Your task to perform on an android device: open app "Yahoo Mail" (install if not already installed) Image 0: 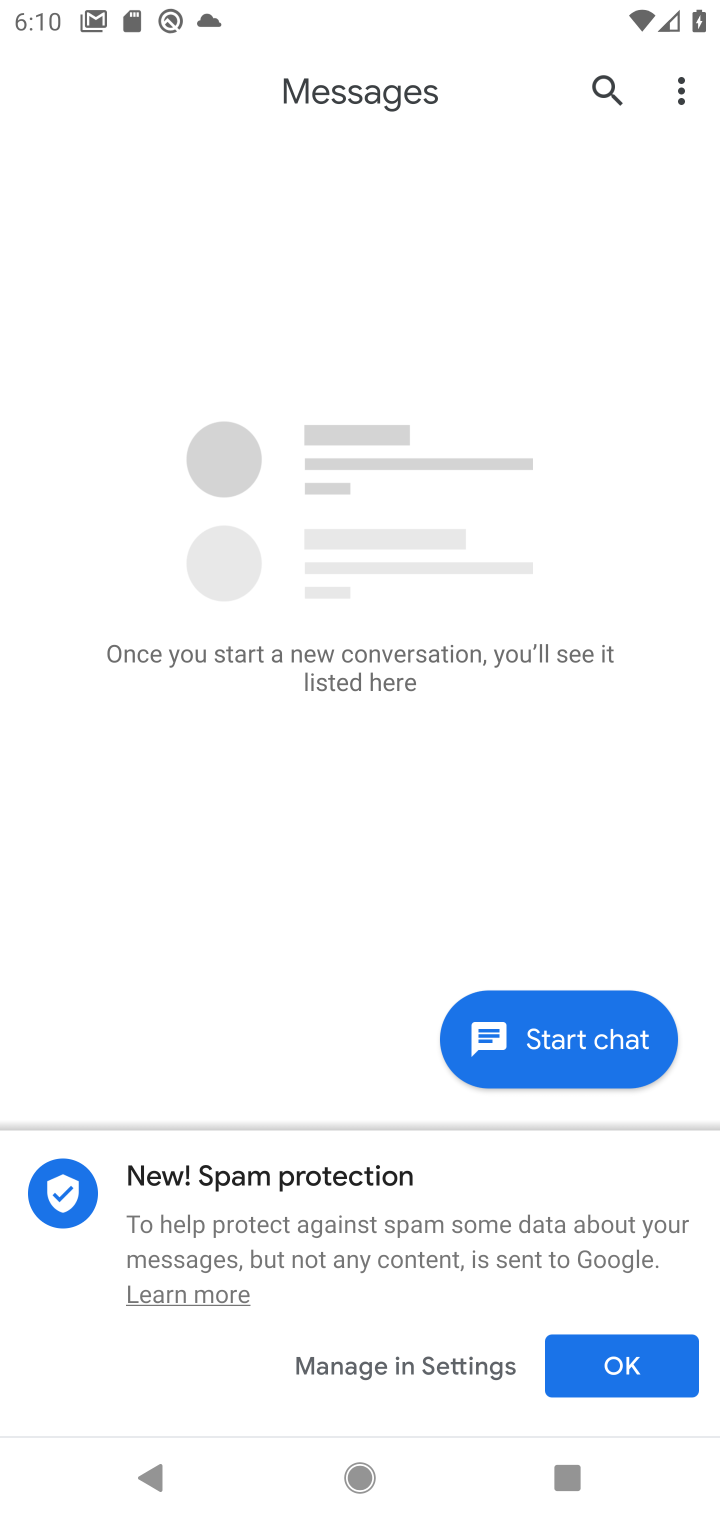
Step 0: drag from (322, 1040) to (416, 427)
Your task to perform on an android device: open app "Yahoo Mail" (install if not already installed) Image 1: 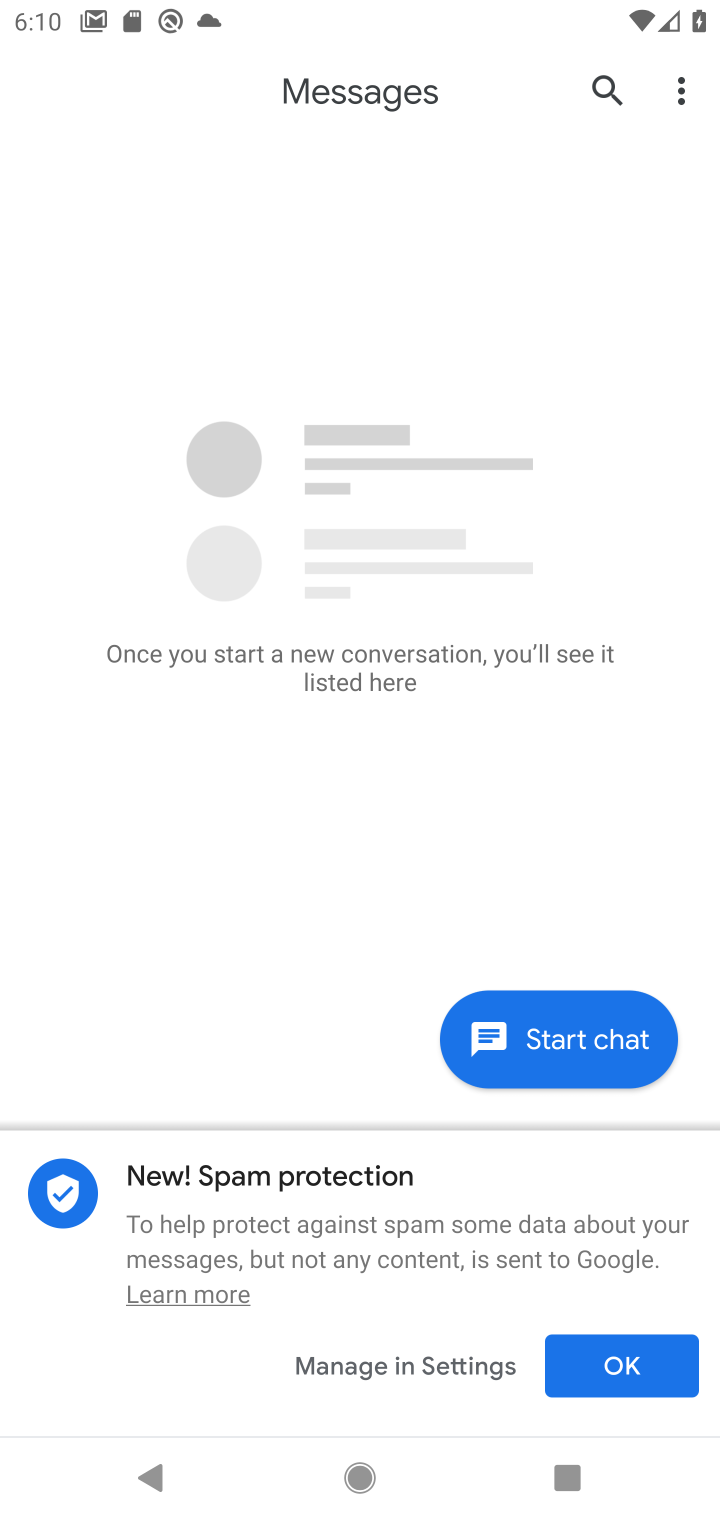
Step 1: drag from (468, 462) to (396, 1217)
Your task to perform on an android device: open app "Yahoo Mail" (install if not already installed) Image 2: 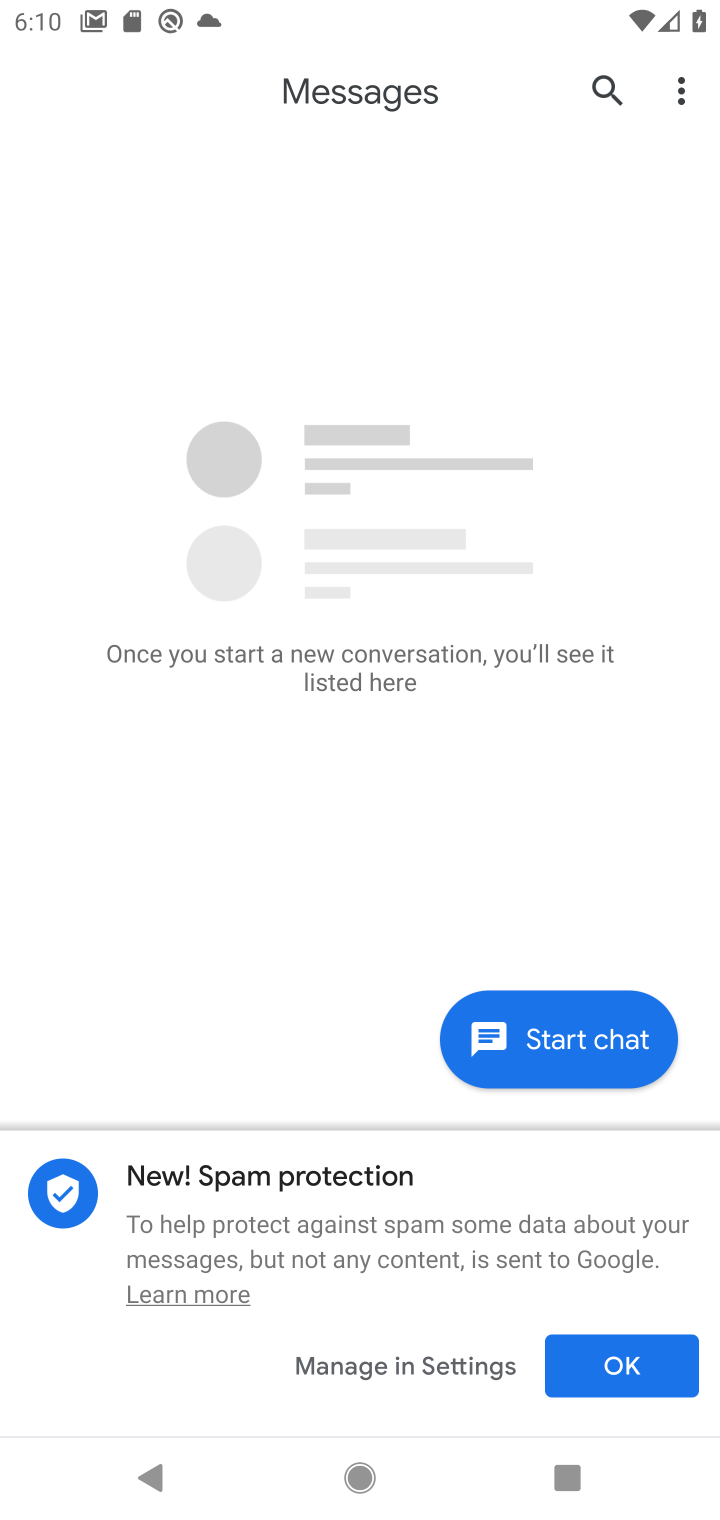
Step 2: press home button
Your task to perform on an android device: open app "Yahoo Mail" (install if not already installed) Image 3: 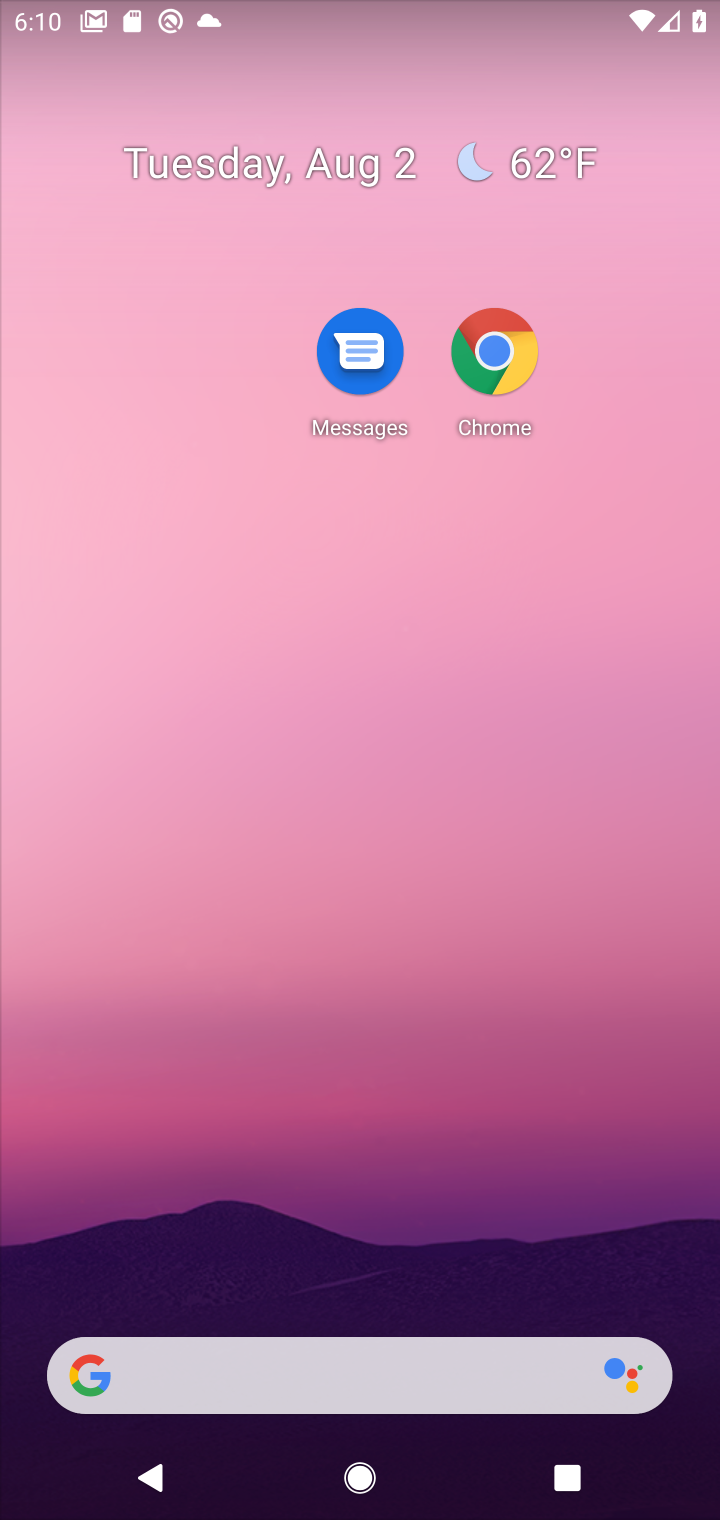
Step 3: drag from (300, 1271) to (322, 466)
Your task to perform on an android device: open app "Yahoo Mail" (install if not already installed) Image 4: 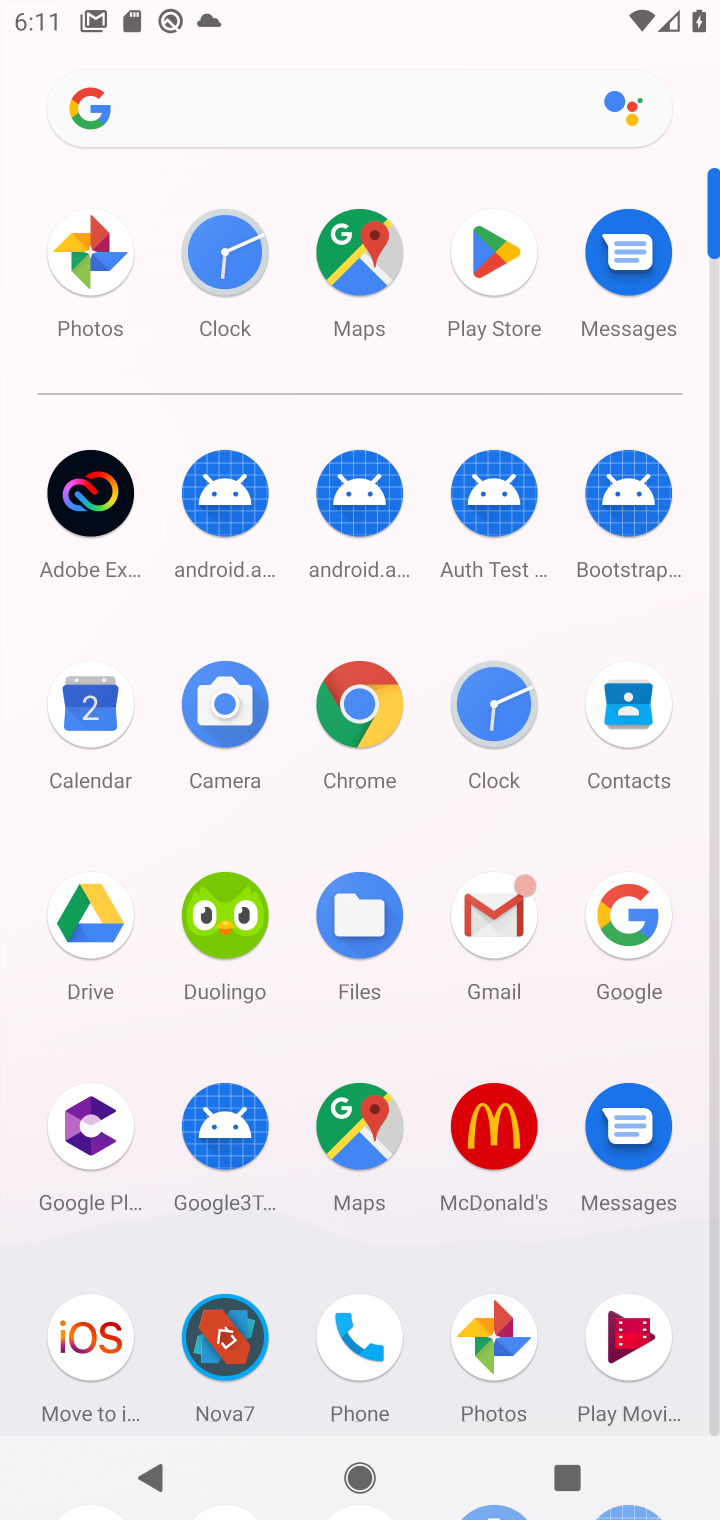
Step 4: click (471, 263)
Your task to perform on an android device: open app "Yahoo Mail" (install if not already installed) Image 5: 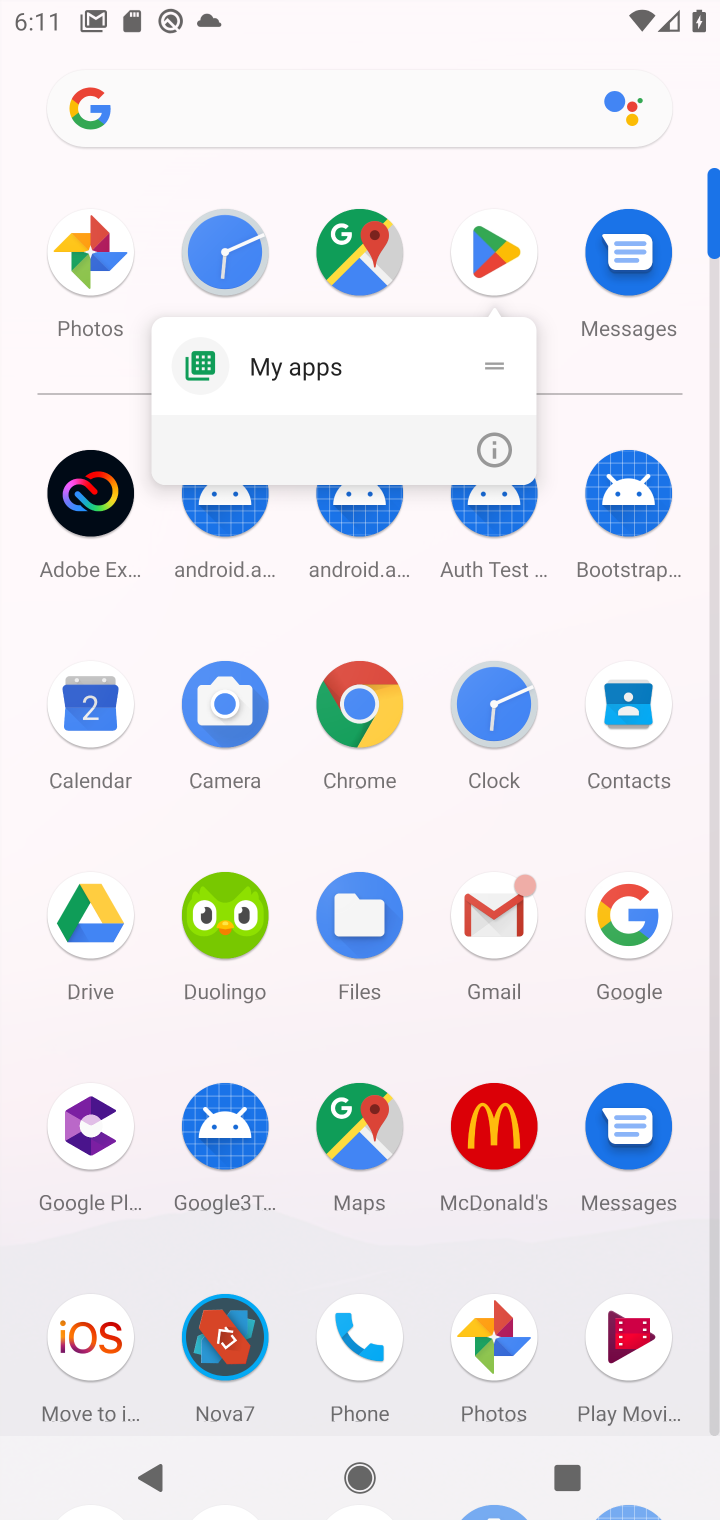
Step 5: click (490, 432)
Your task to perform on an android device: open app "Yahoo Mail" (install if not already installed) Image 6: 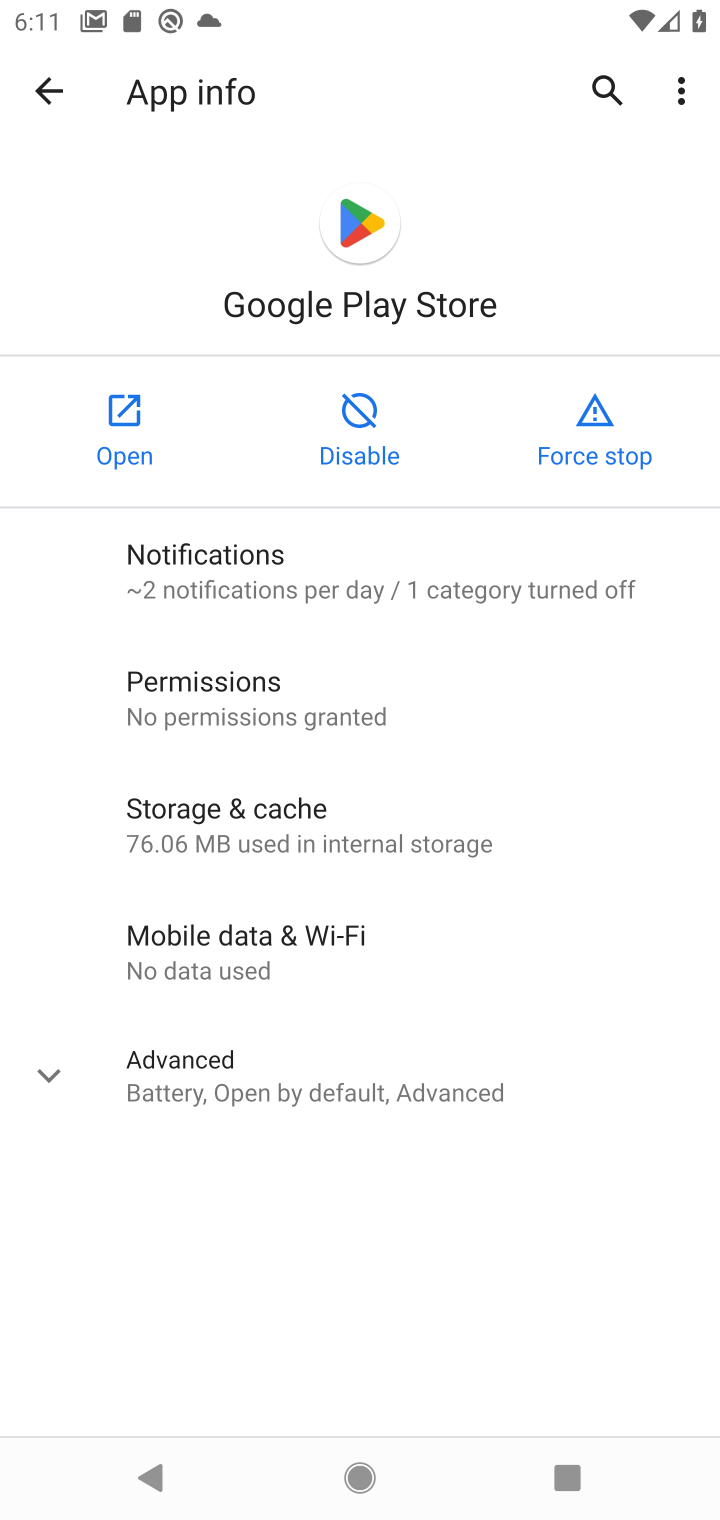
Step 6: click (127, 438)
Your task to perform on an android device: open app "Yahoo Mail" (install if not already installed) Image 7: 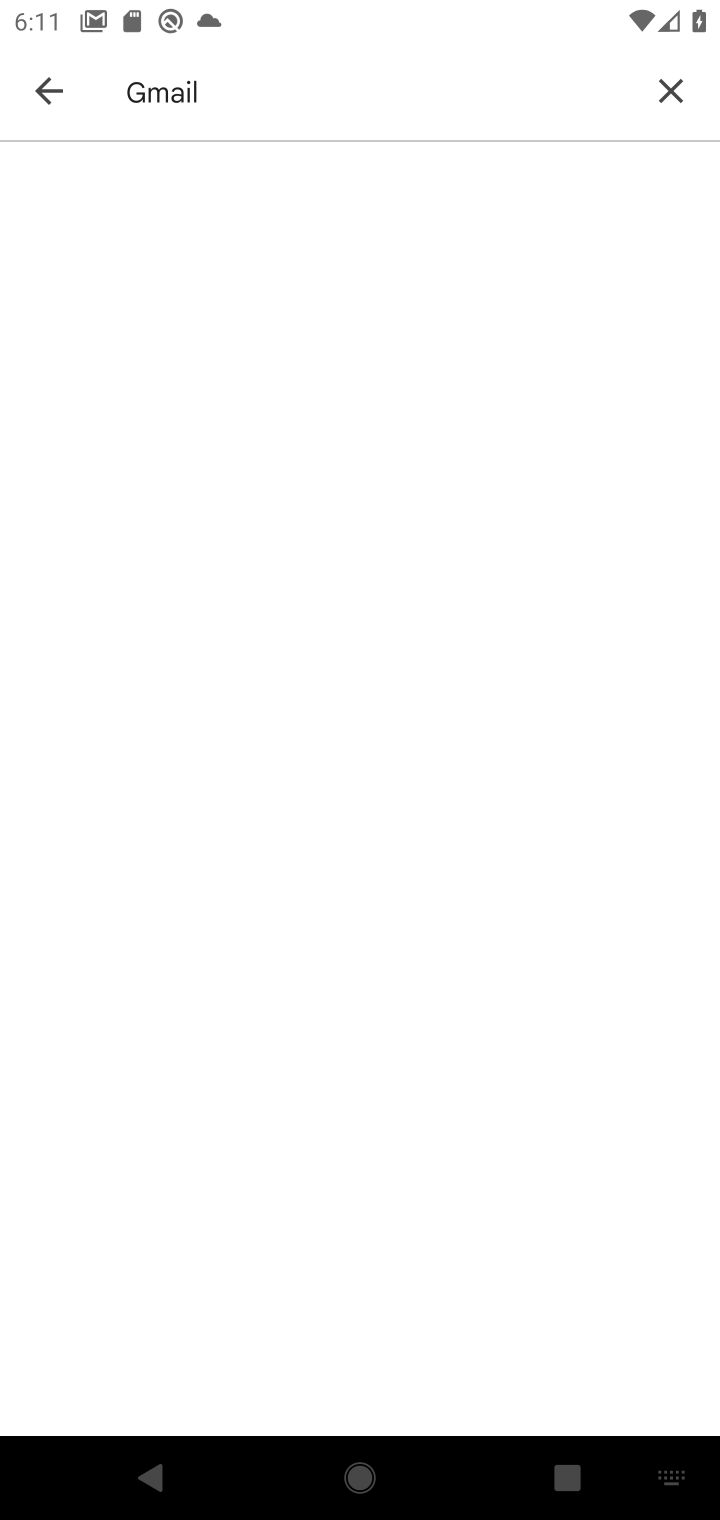
Step 7: click (681, 99)
Your task to perform on an android device: open app "Yahoo Mail" (install if not already installed) Image 8: 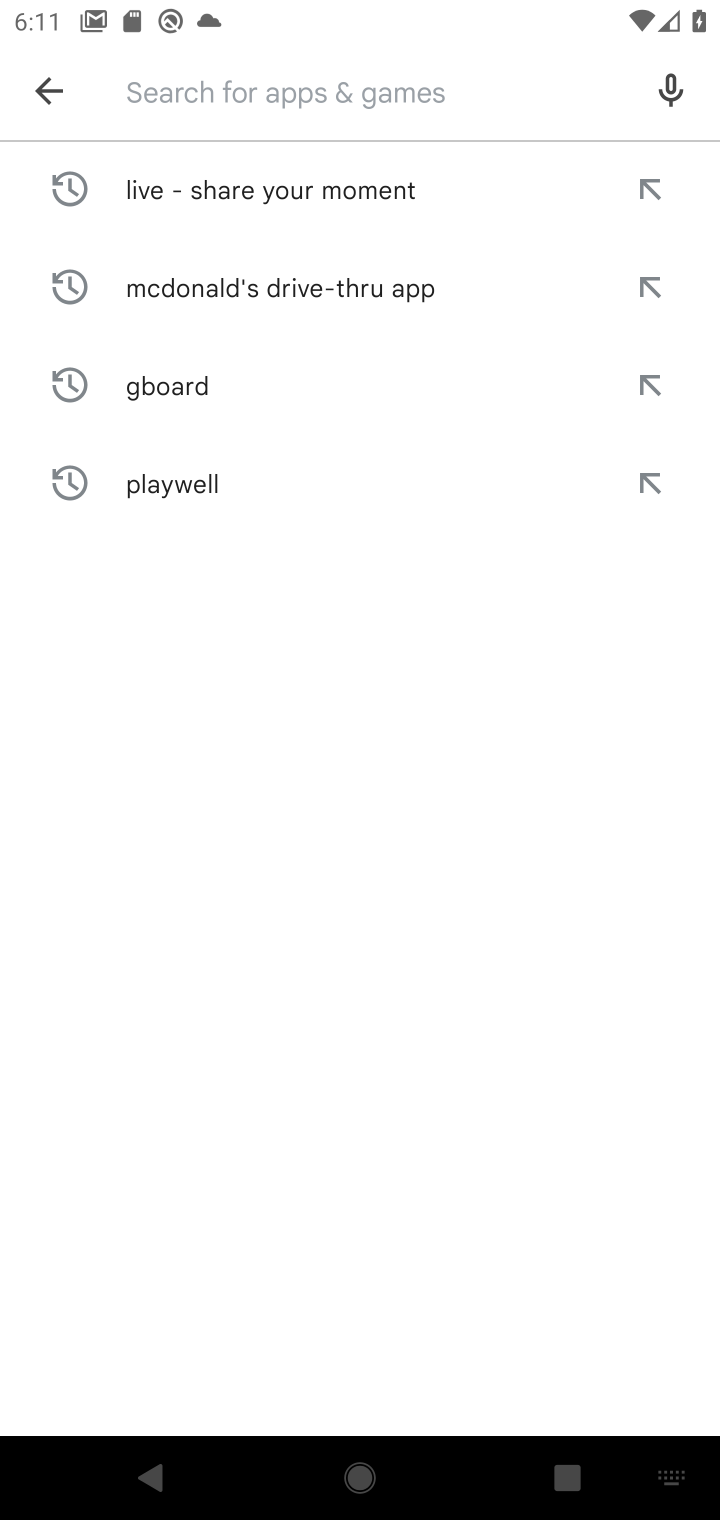
Step 8: click (32, 92)
Your task to perform on an android device: open app "Yahoo Mail" (install if not already installed) Image 9: 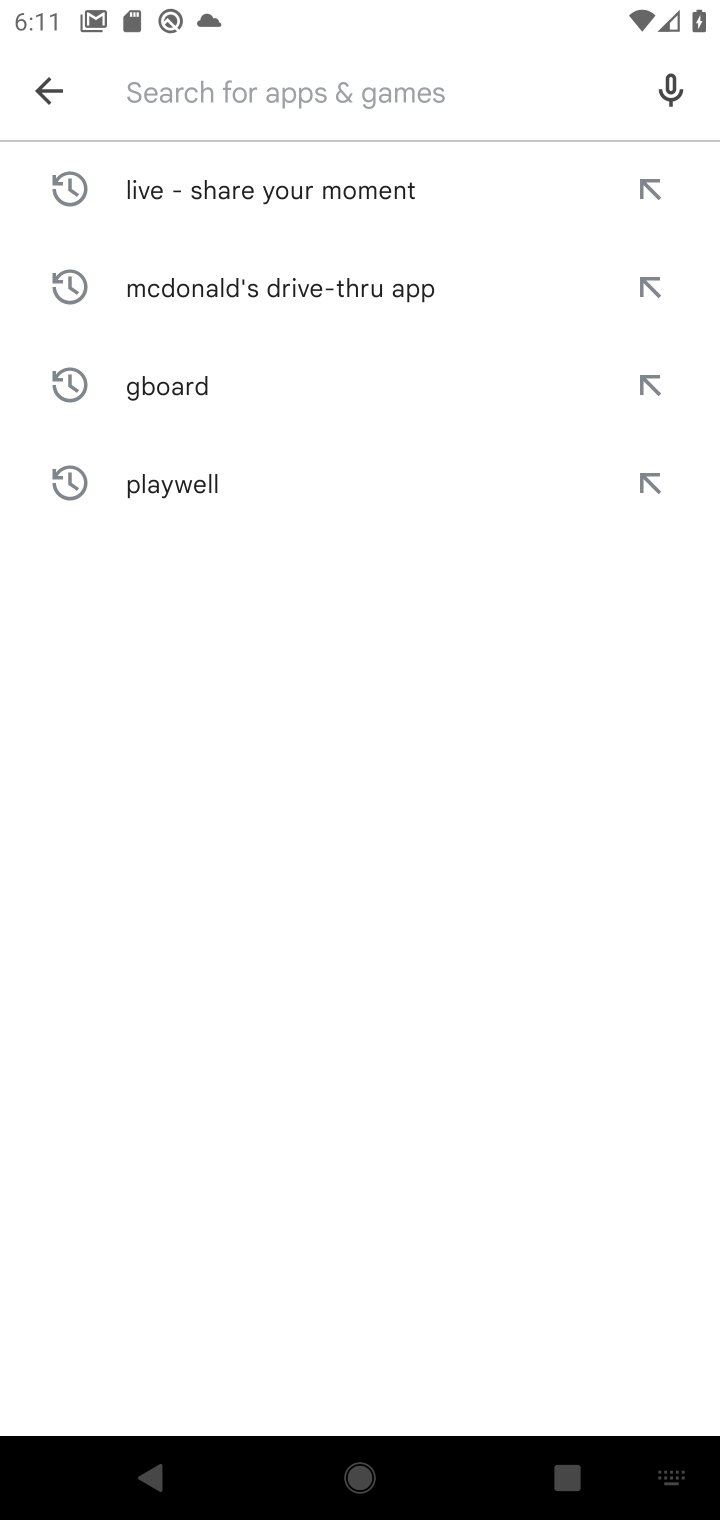
Step 9: click (168, 79)
Your task to perform on an android device: open app "Yahoo Mail" (install if not already installed) Image 10: 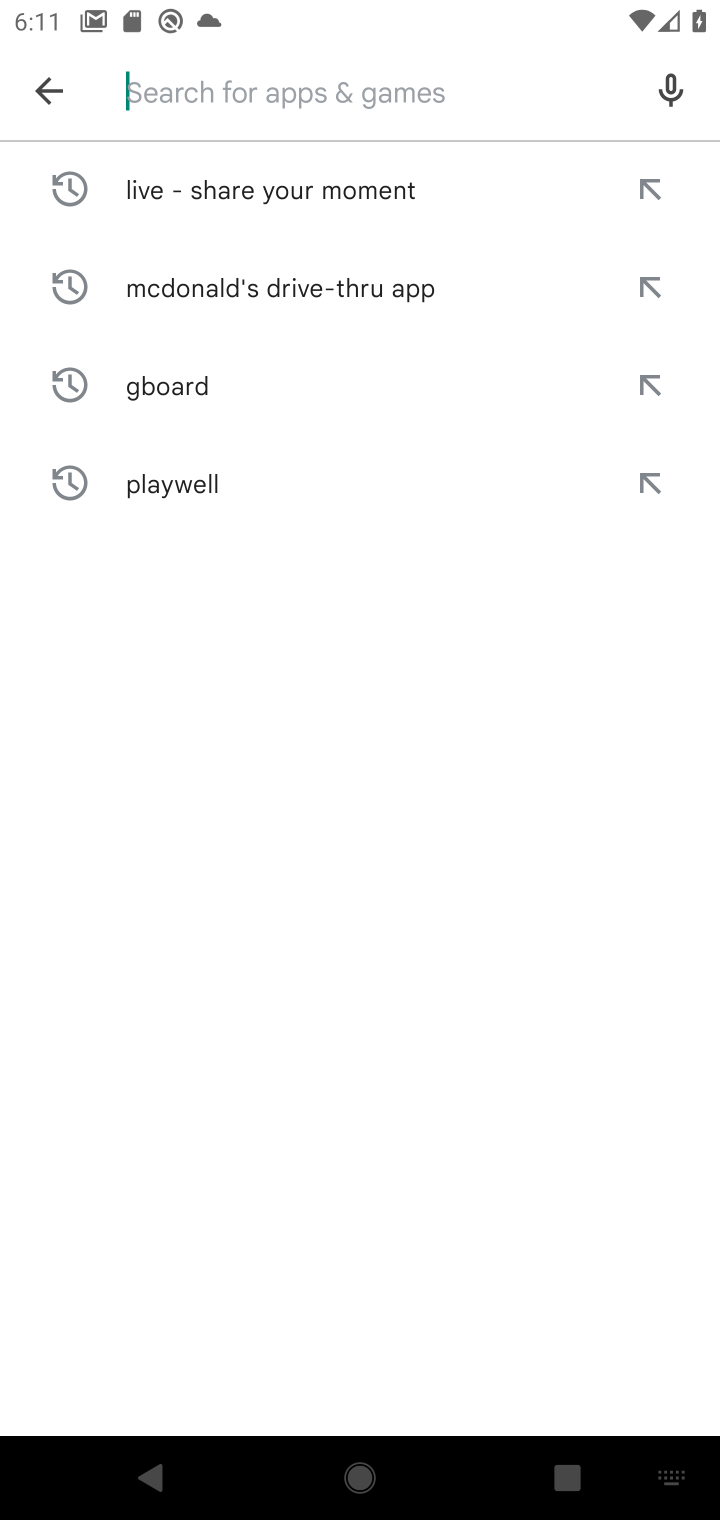
Step 10: type "Yahoo Mail"
Your task to perform on an android device: open app "Yahoo Mail" (install if not already installed) Image 11: 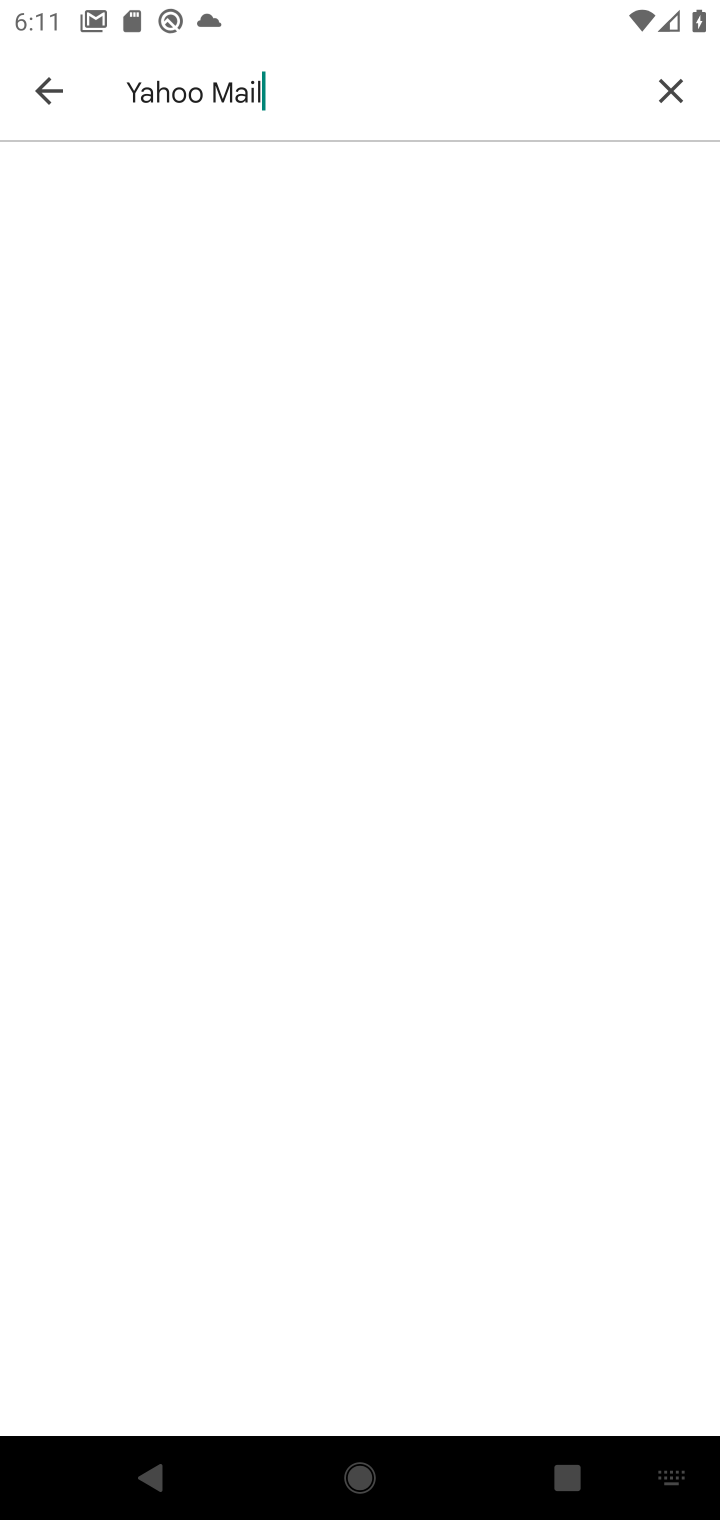
Step 11: click (331, 254)
Your task to perform on an android device: open app "Yahoo Mail" (install if not already installed) Image 12: 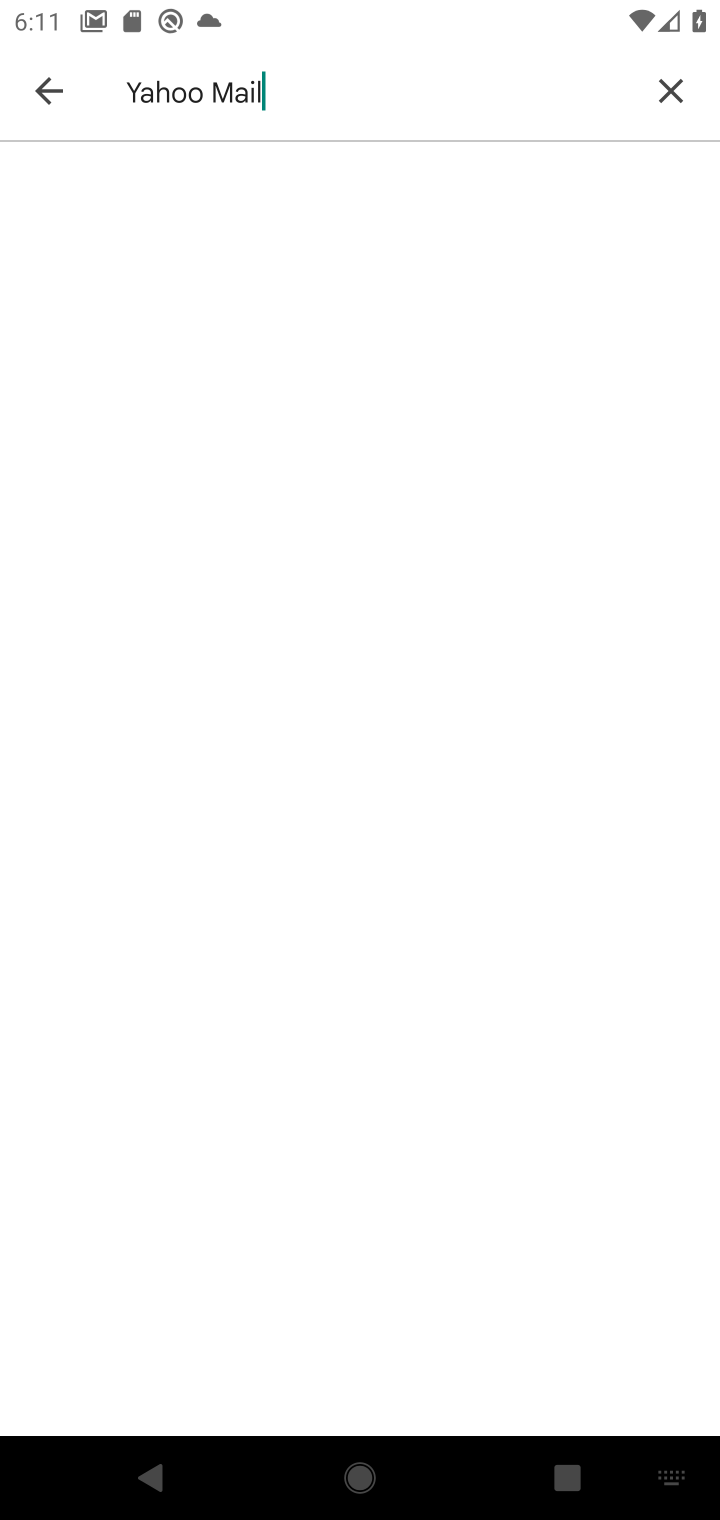
Step 12: click (268, 197)
Your task to perform on an android device: open app "Yahoo Mail" (install if not already installed) Image 13: 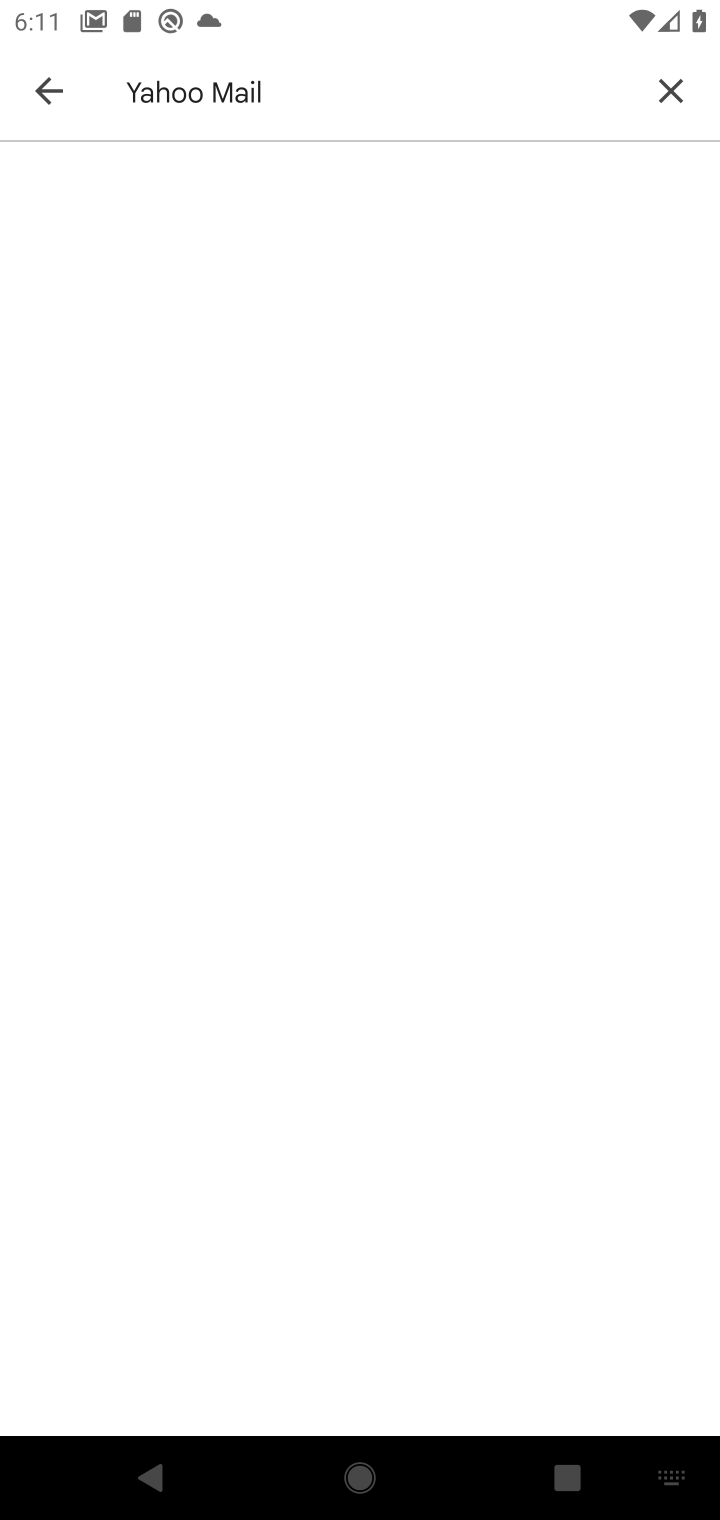
Step 13: drag from (400, 1224) to (450, 488)
Your task to perform on an android device: open app "Yahoo Mail" (install if not already installed) Image 14: 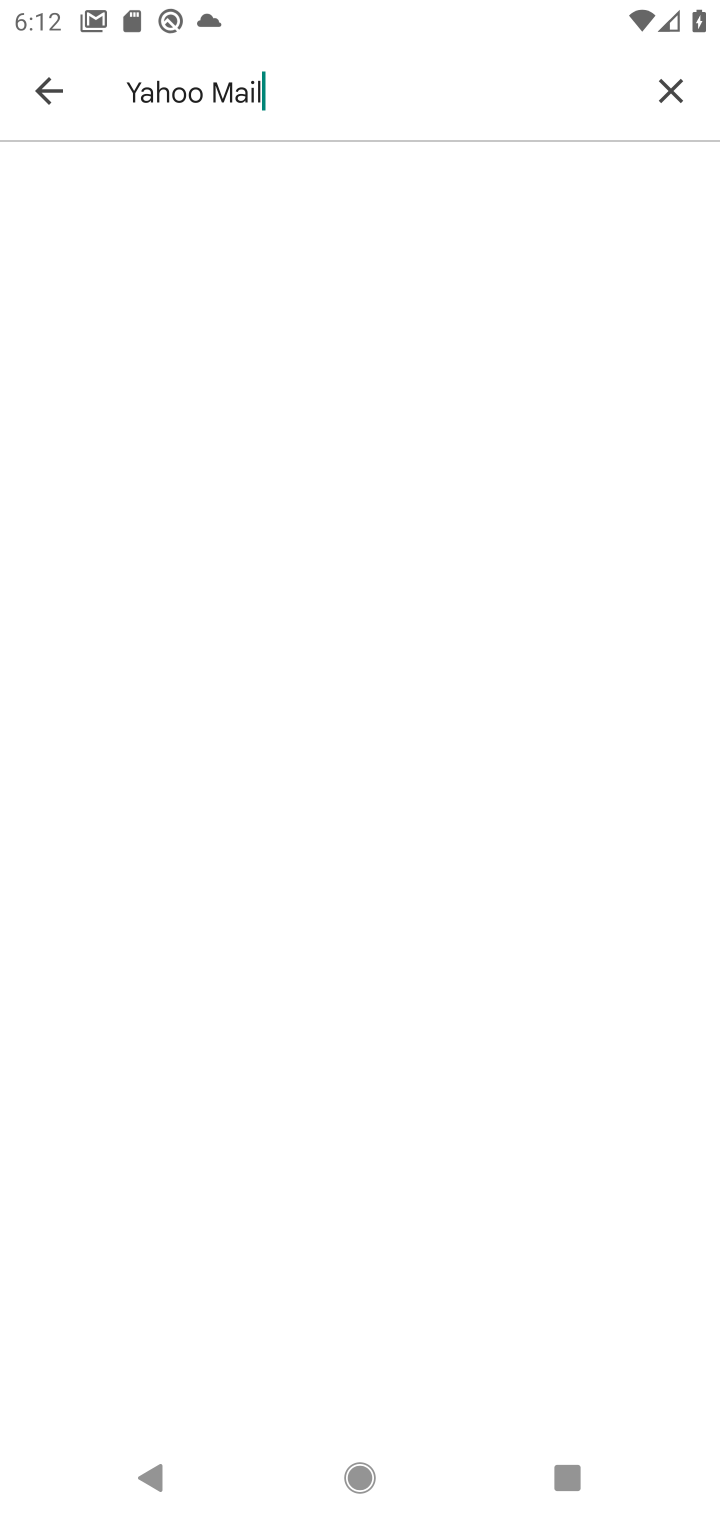
Step 14: drag from (259, 306) to (341, 1111)
Your task to perform on an android device: open app "Yahoo Mail" (install if not already installed) Image 15: 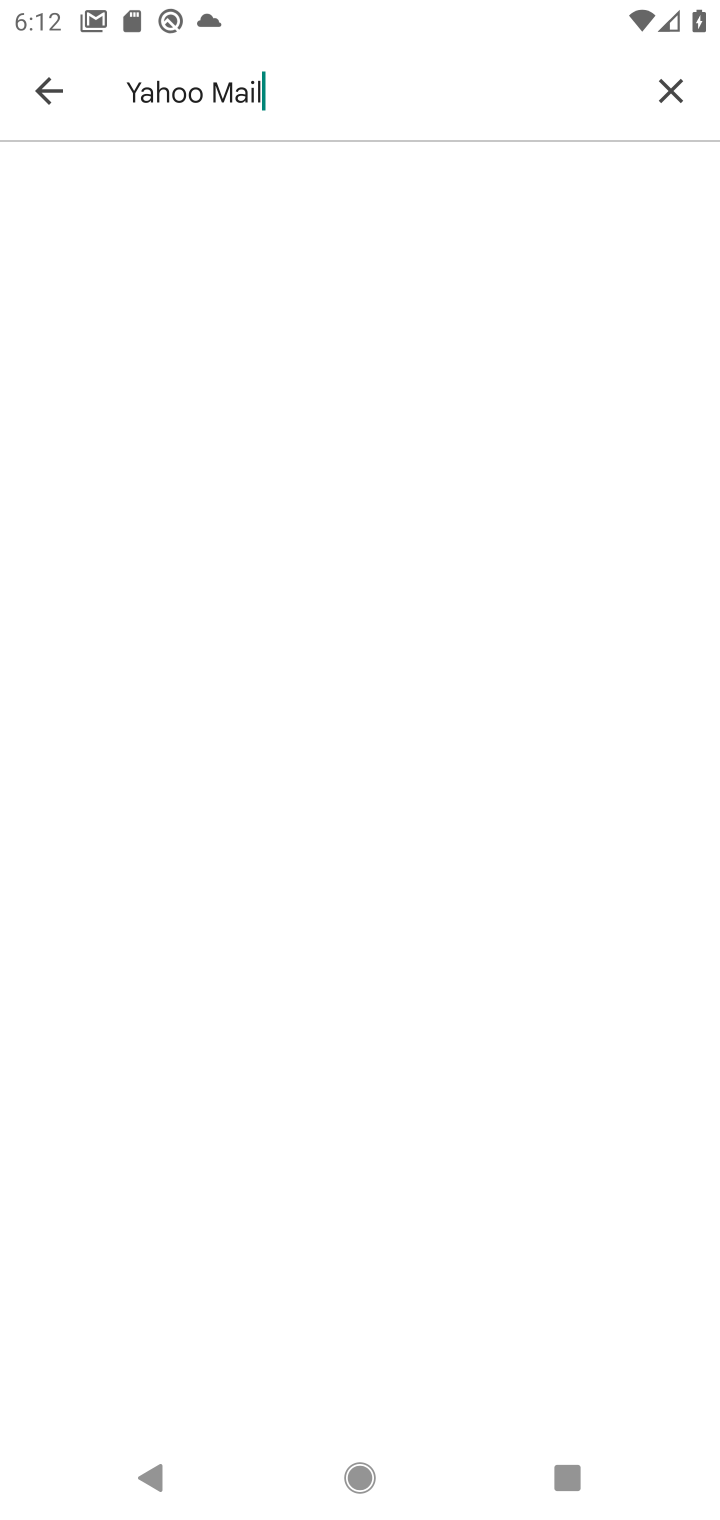
Step 15: click (364, 907)
Your task to perform on an android device: open app "Yahoo Mail" (install if not already installed) Image 16: 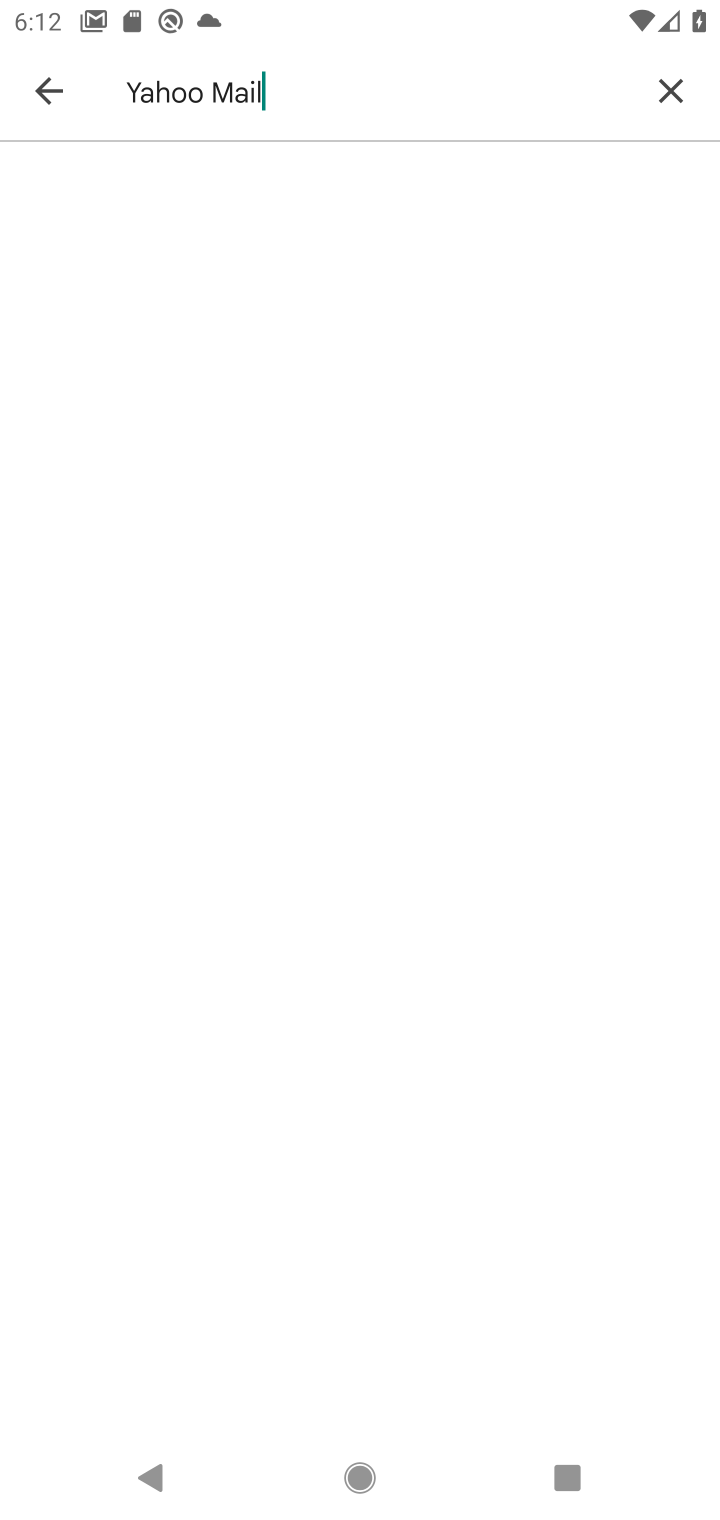
Step 16: click (241, 201)
Your task to perform on an android device: open app "Yahoo Mail" (install if not already installed) Image 17: 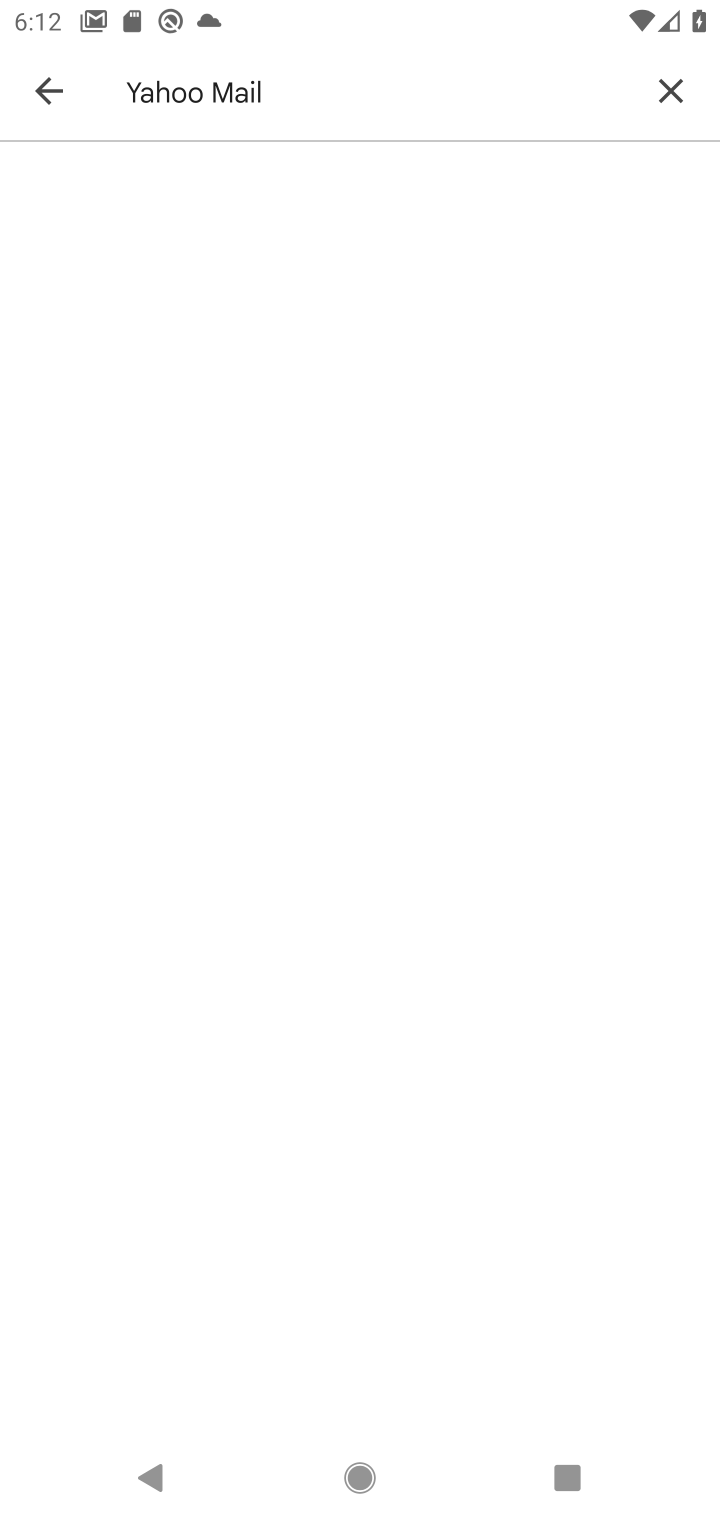
Step 17: click (201, 215)
Your task to perform on an android device: open app "Yahoo Mail" (install if not already installed) Image 18: 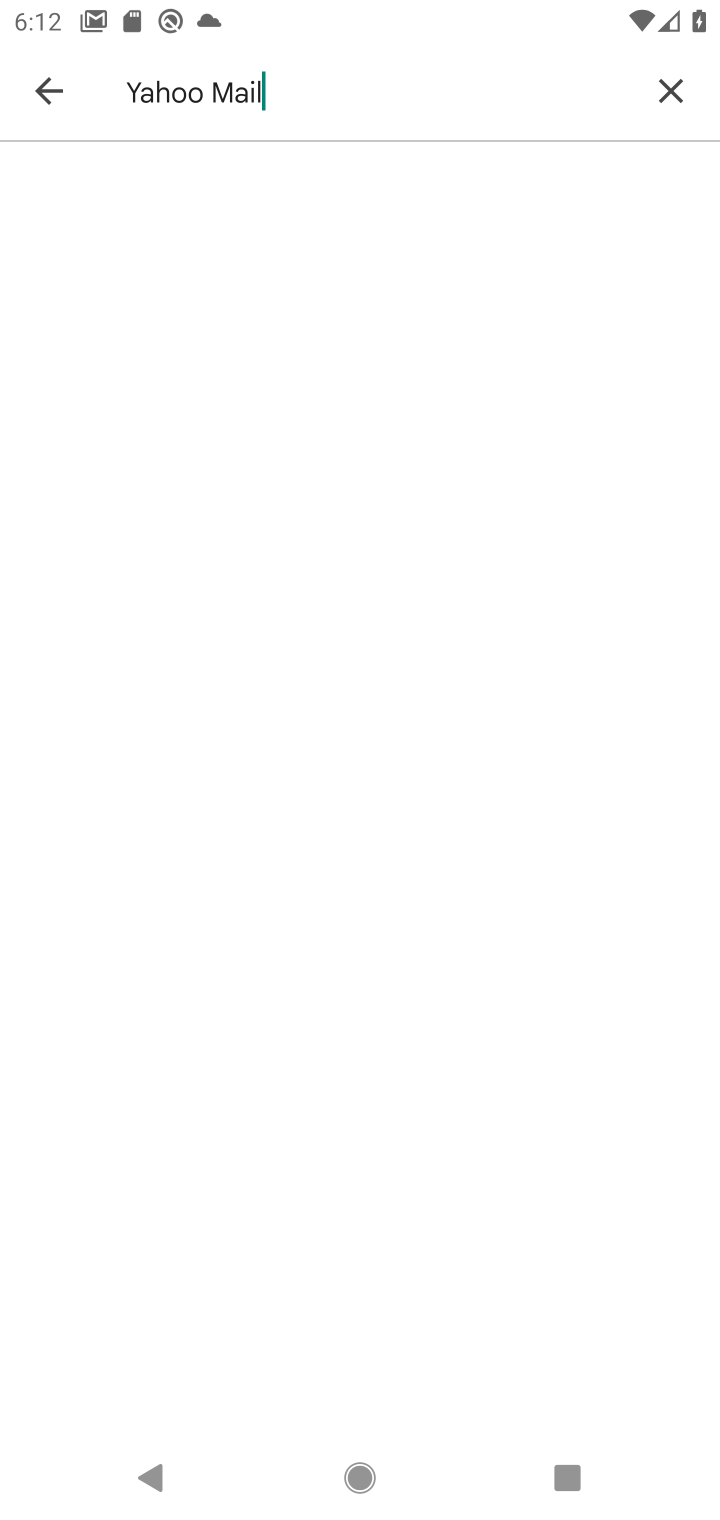
Step 18: click (191, 221)
Your task to perform on an android device: open app "Yahoo Mail" (install if not already installed) Image 19: 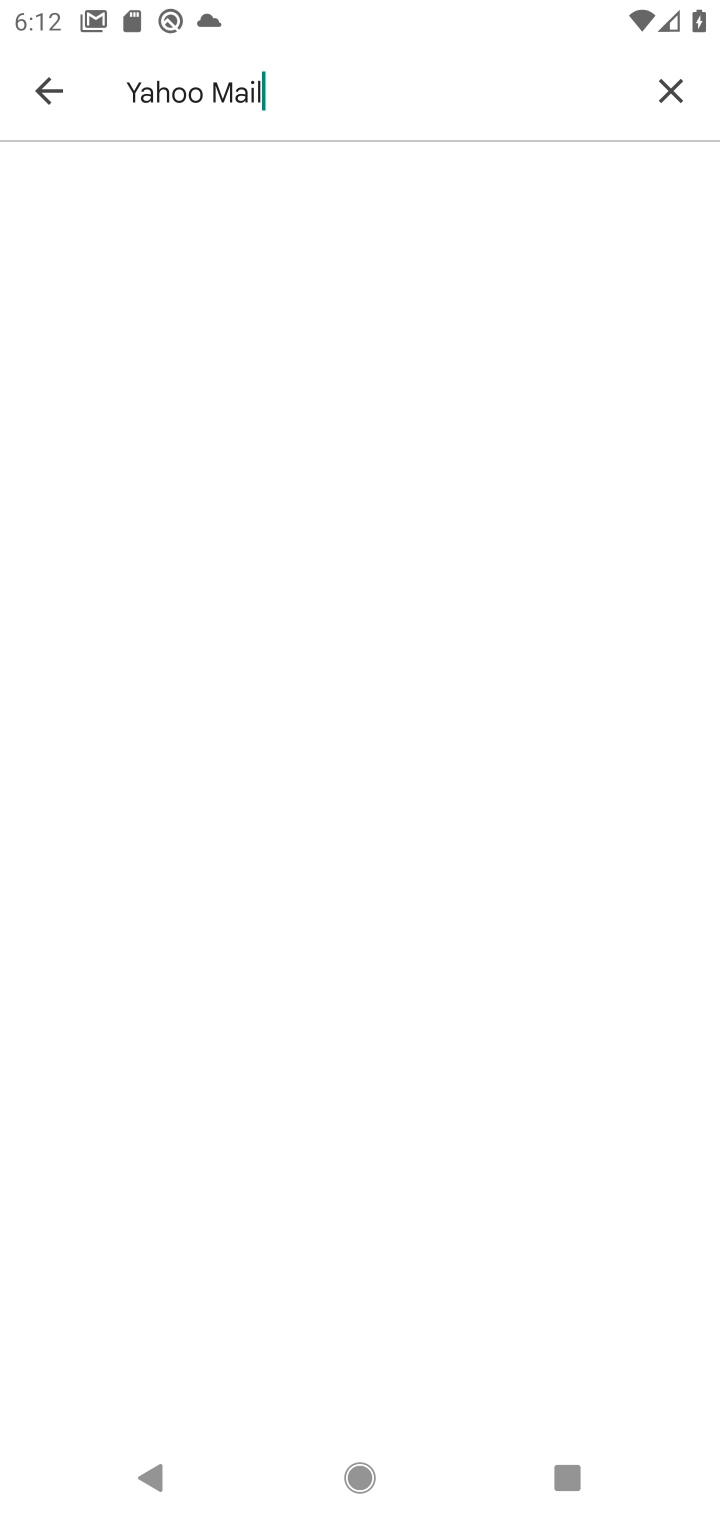
Step 19: click (149, 178)
Your task to perform on an android device: open app "Yahoo Mail" (install if not already installed) Image 20: 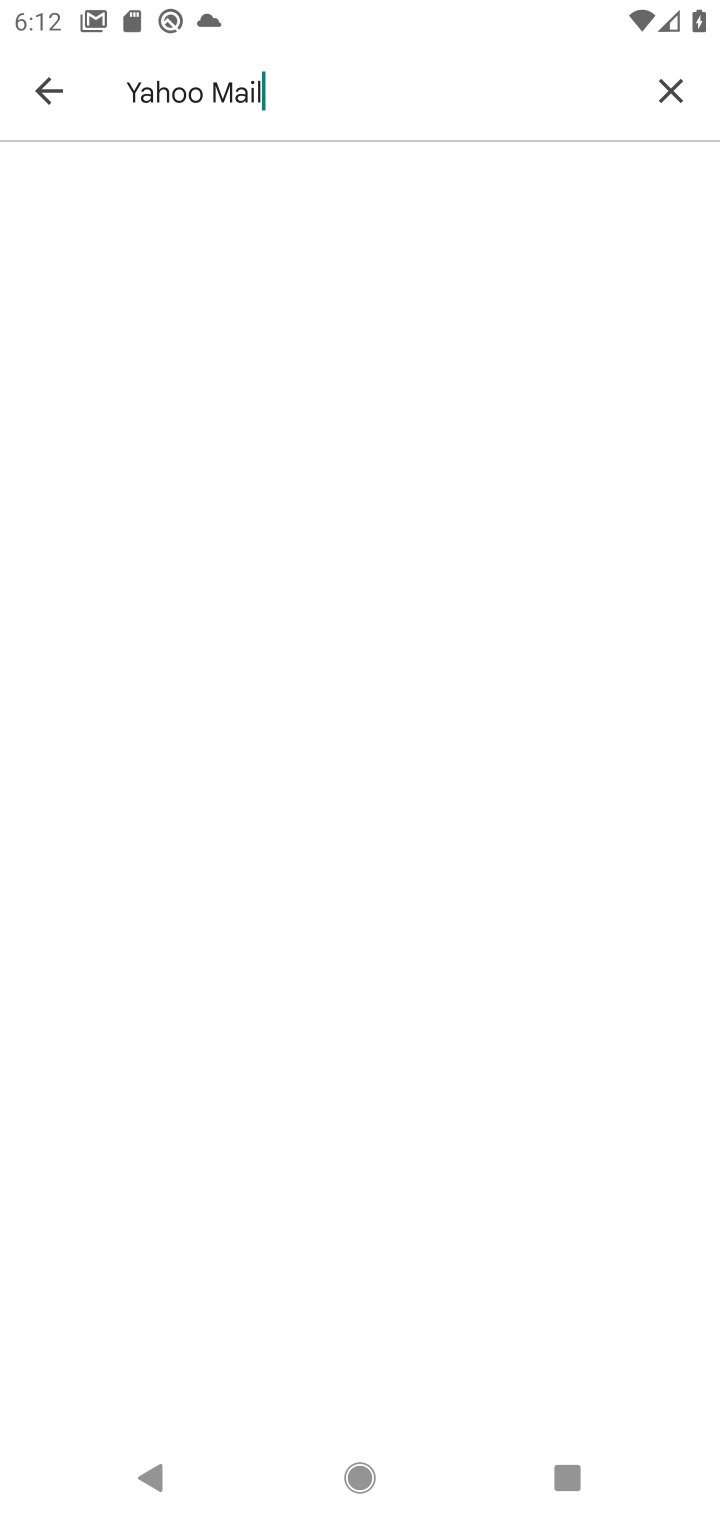
Step 20: click (147, 180)
Your task to perform on an android device: open app "Yahoo Mail" (install if not already installed) Image 21: 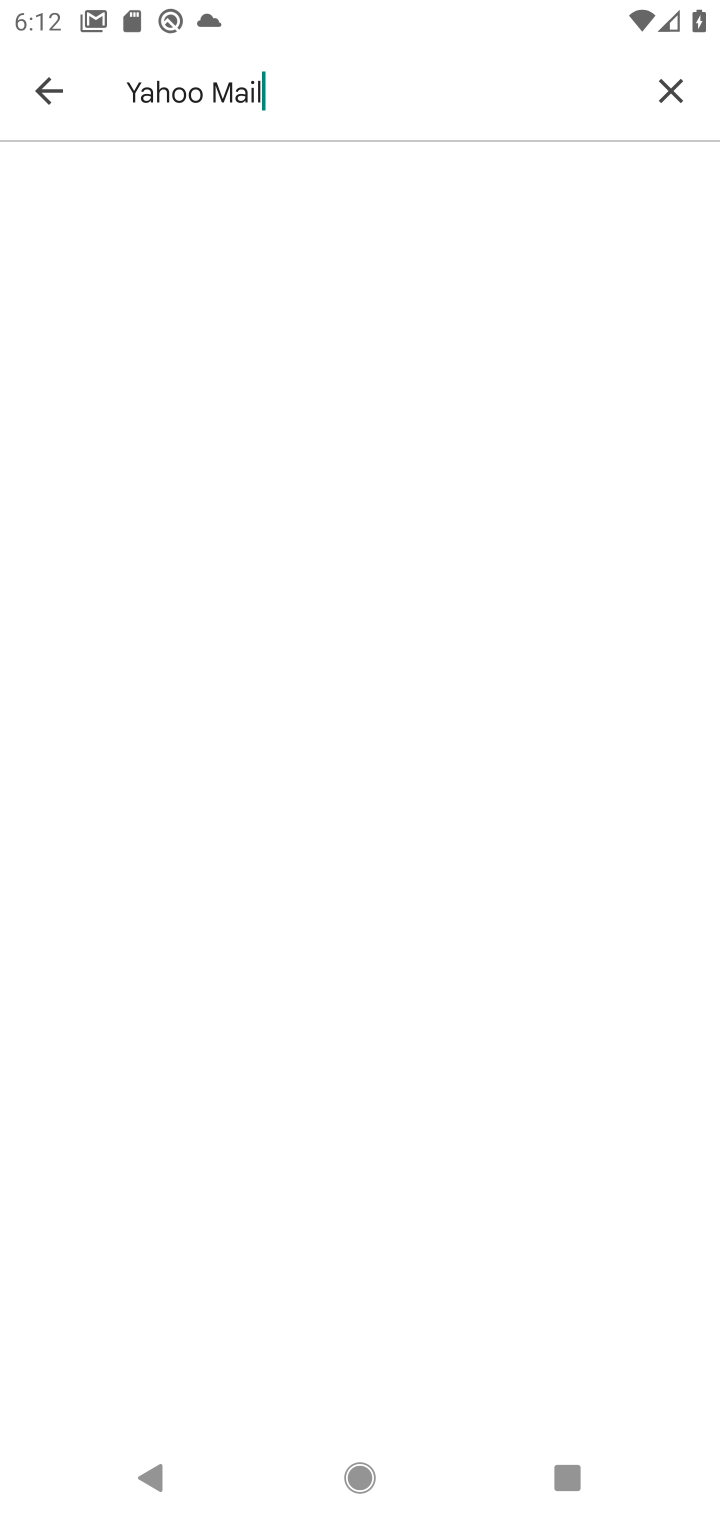
Step 21: click (147, 180)
Your task to perform on an android device: open app "Yahoo Mail" (install if not already installed) Image 22: 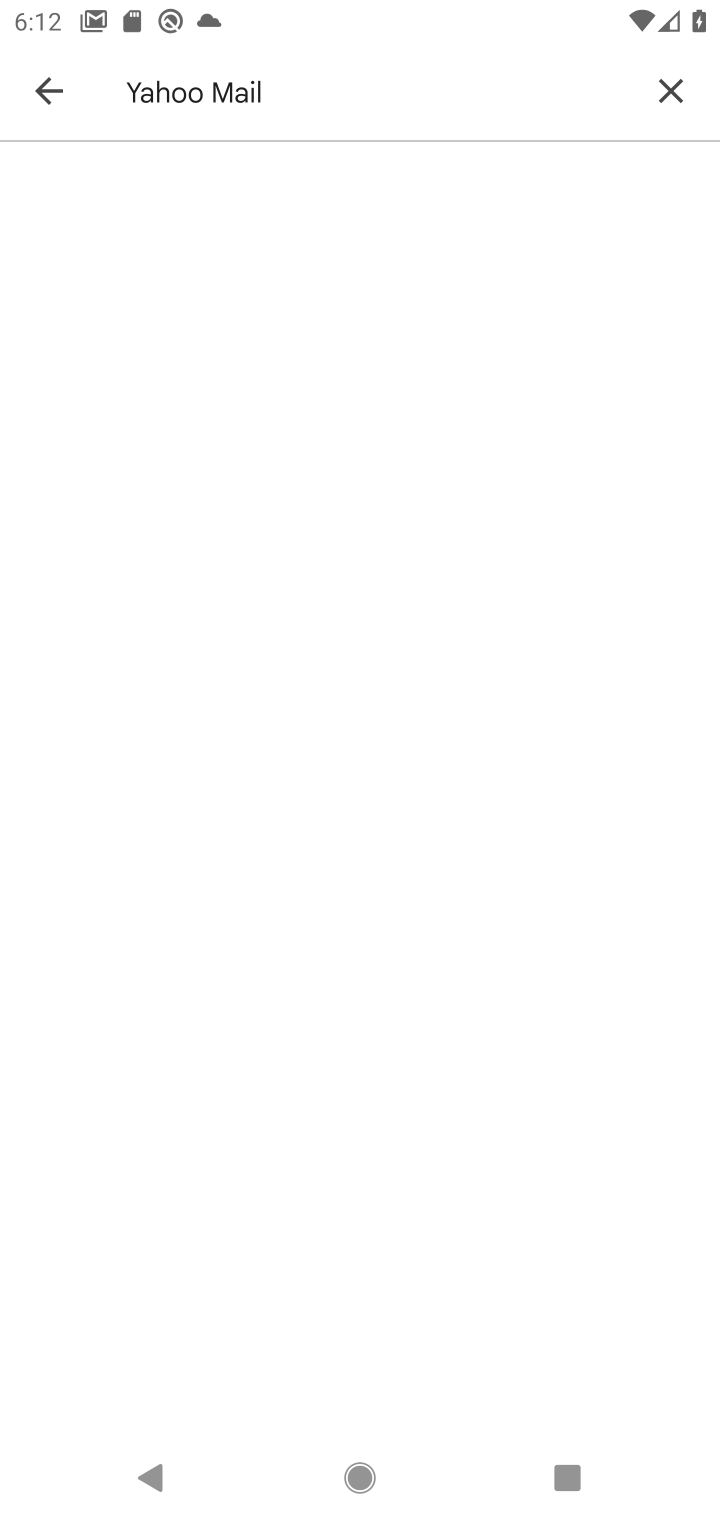
Step 22: click (195, 166)
Your task to perform on an android device: open app "Yahoo Mail" (install if not already installed) Image 23: 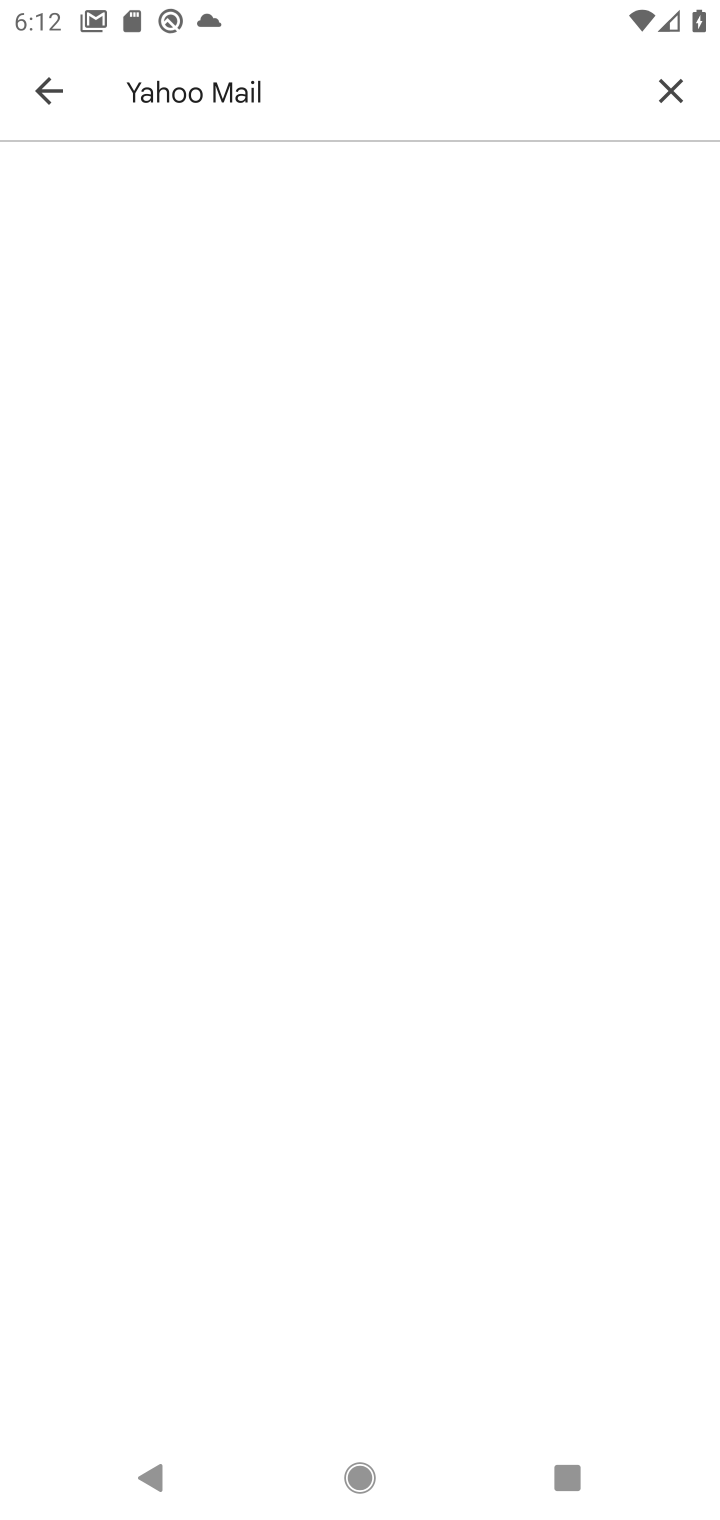
Step 23: click (290, 173)
Your task to perform on an android device: open app "Yahoo Mail" (install if not already installed) Image 24: 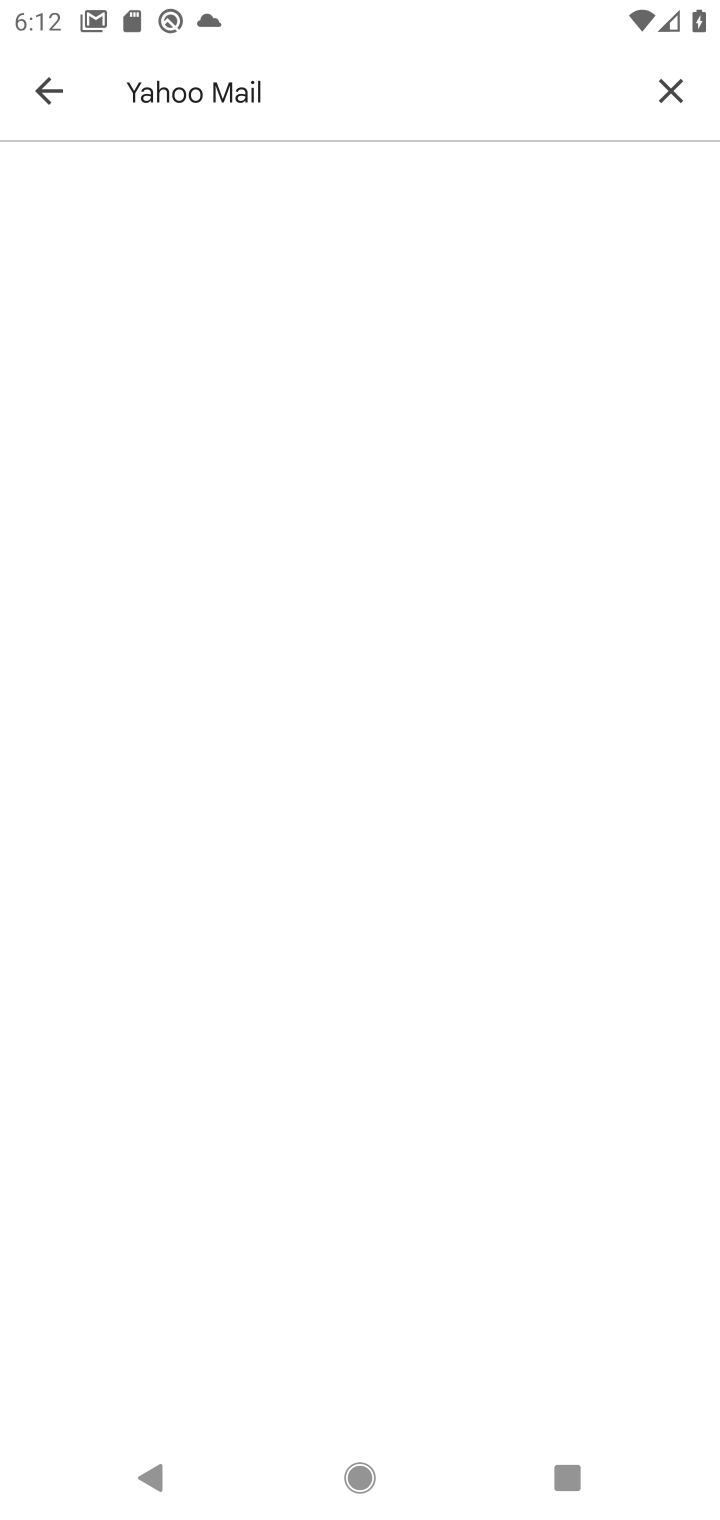
Step 24: click (182, 199)
Your task to perform on an android device: open app "Yahoo Mail" (install if not already installed) Image 25: 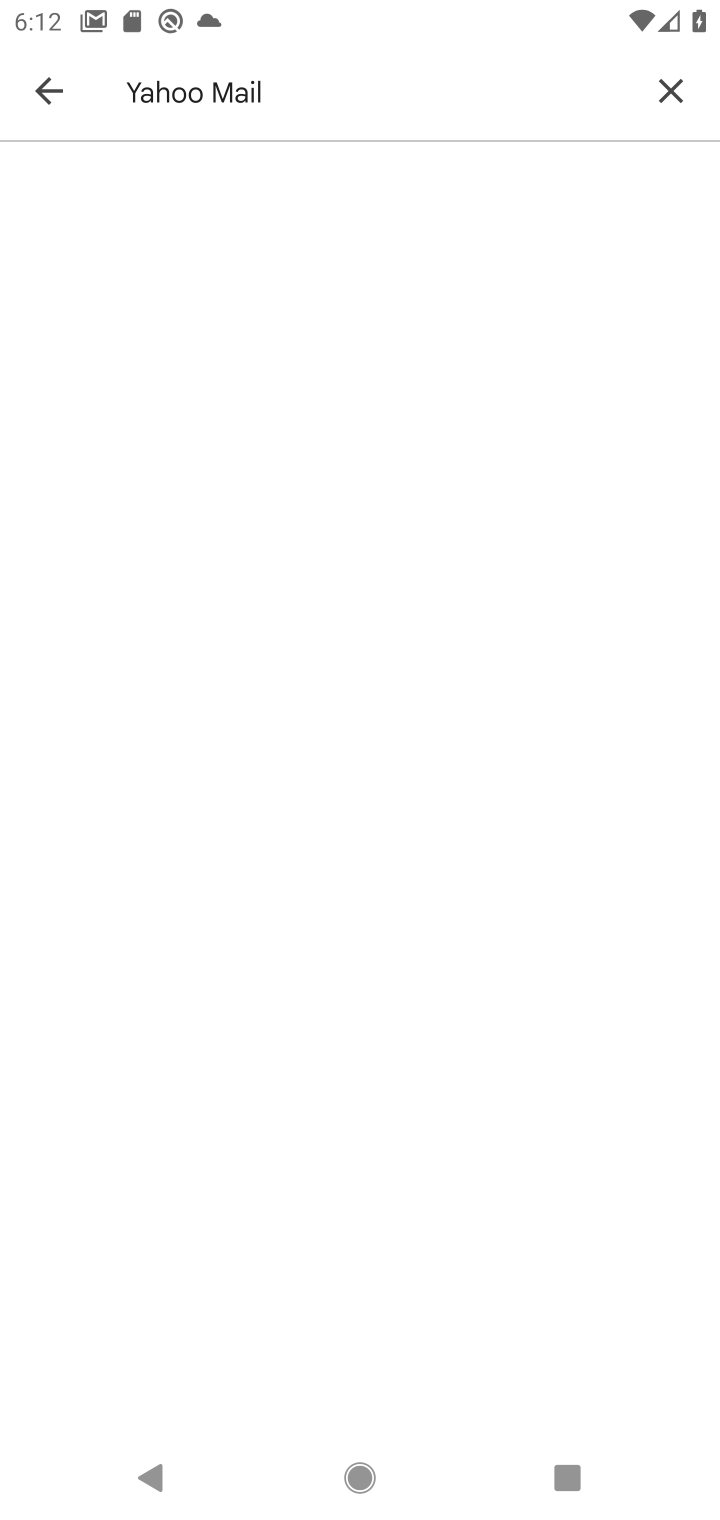
Step 25: click (172, 203)
Your task to perform on an android device: open app "Yahoo Mail" (install if not already installed) Image 26: 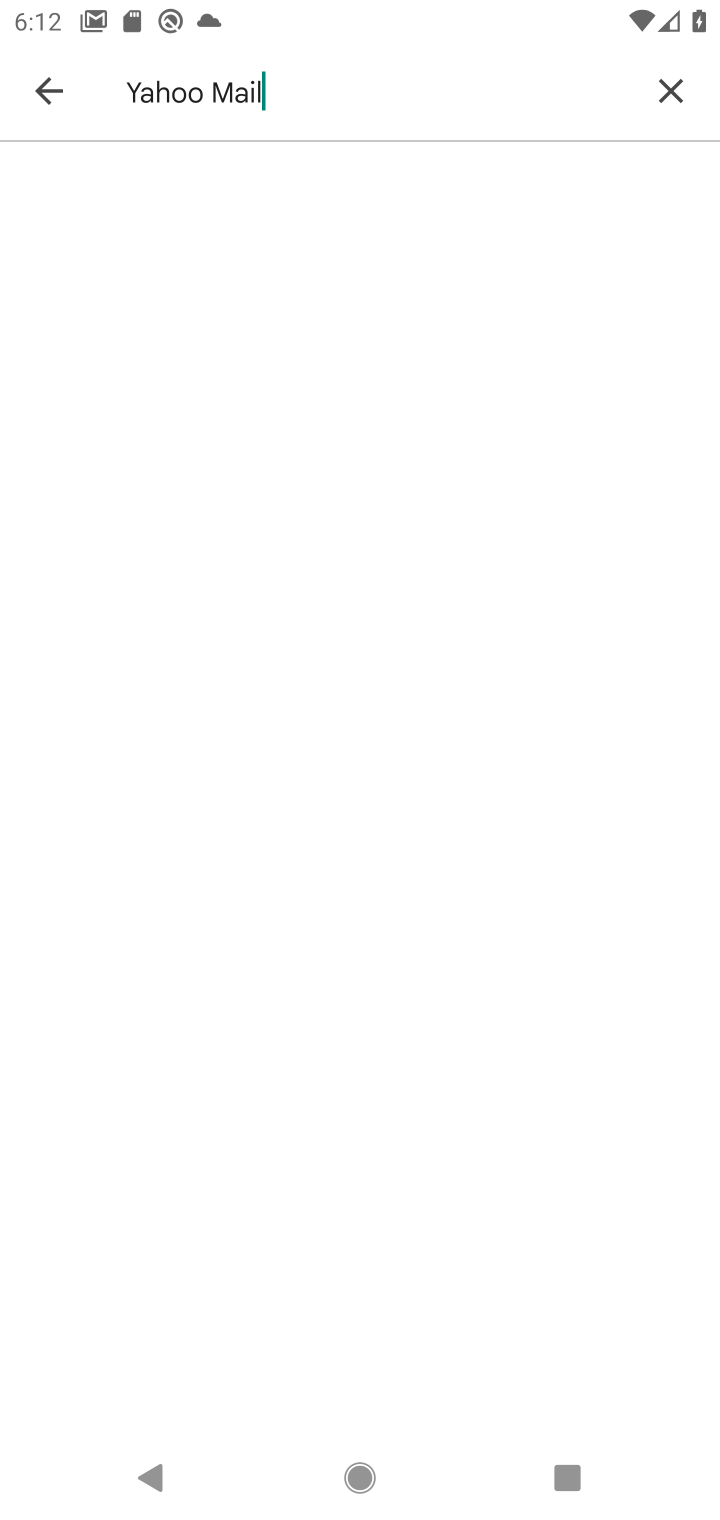
Step 26: drag from (301, 203) to (244, 762)
Your task to perform on an android device: open app "Yahoo Mail" (install if not already installed) Image 27: 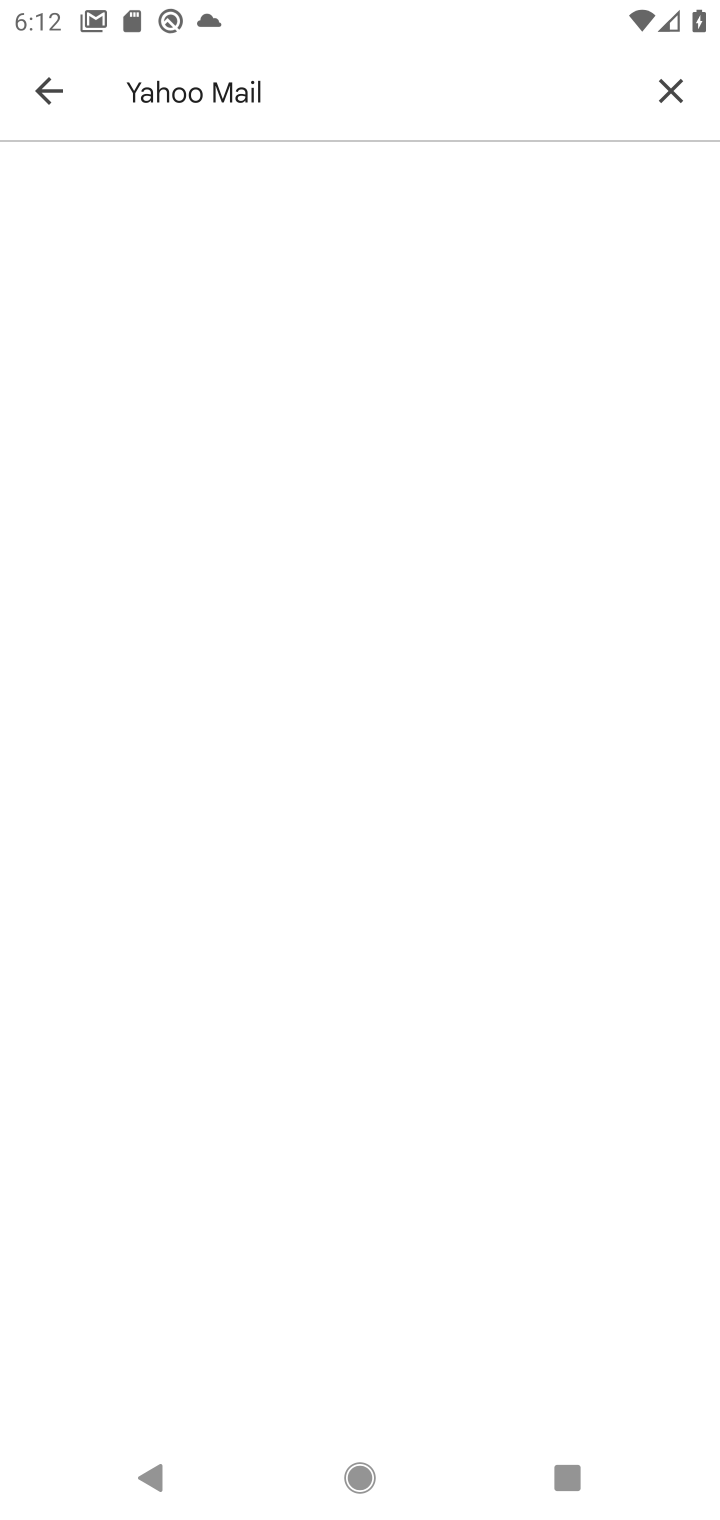
Step 27: drag from (226, 213) to (513, 1497)
Your task to perform on an android device: open app "Yahoo Mail" (install if not already installed) Image 28: 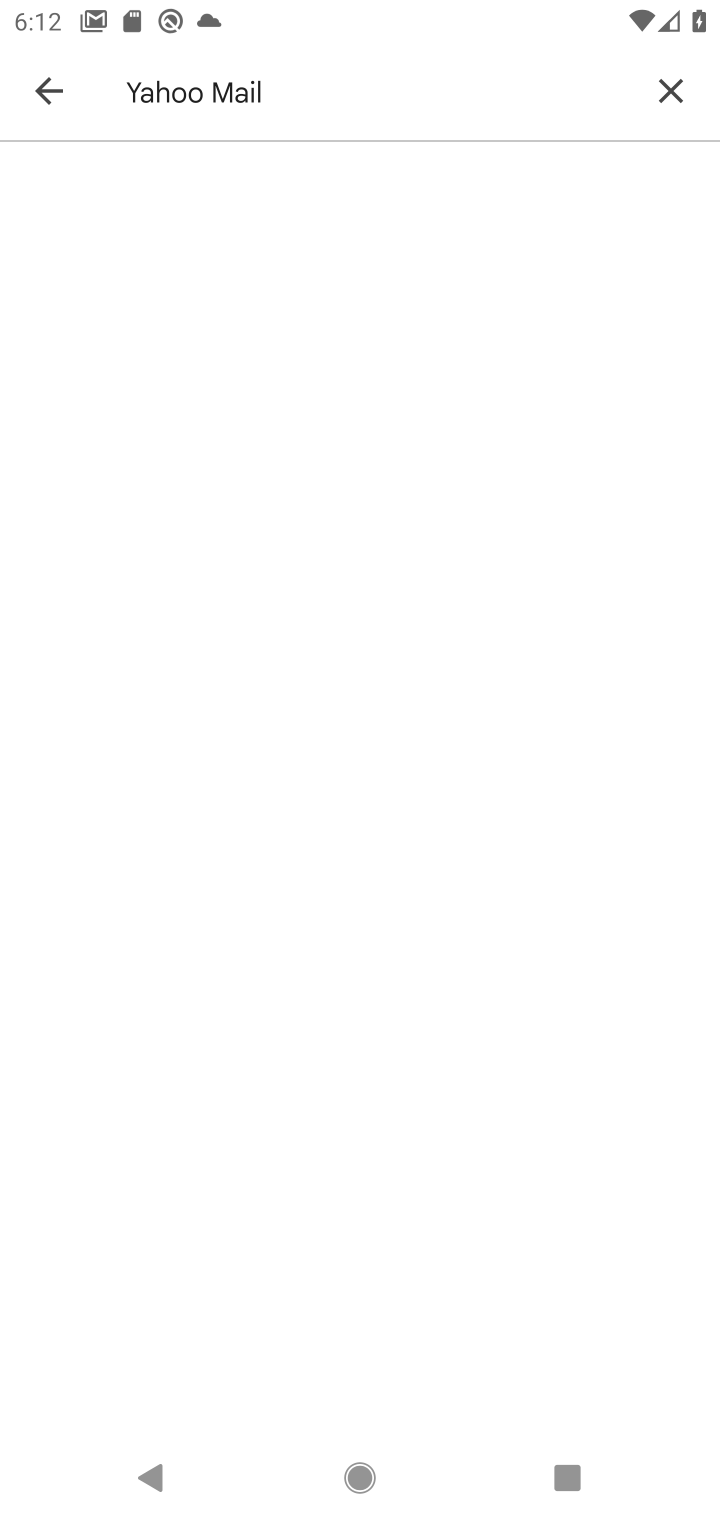
Step 28: click (303, 222)
Your task to perform on an android device: open app "Yahoo Mail" (install if not already installed) Image 29: 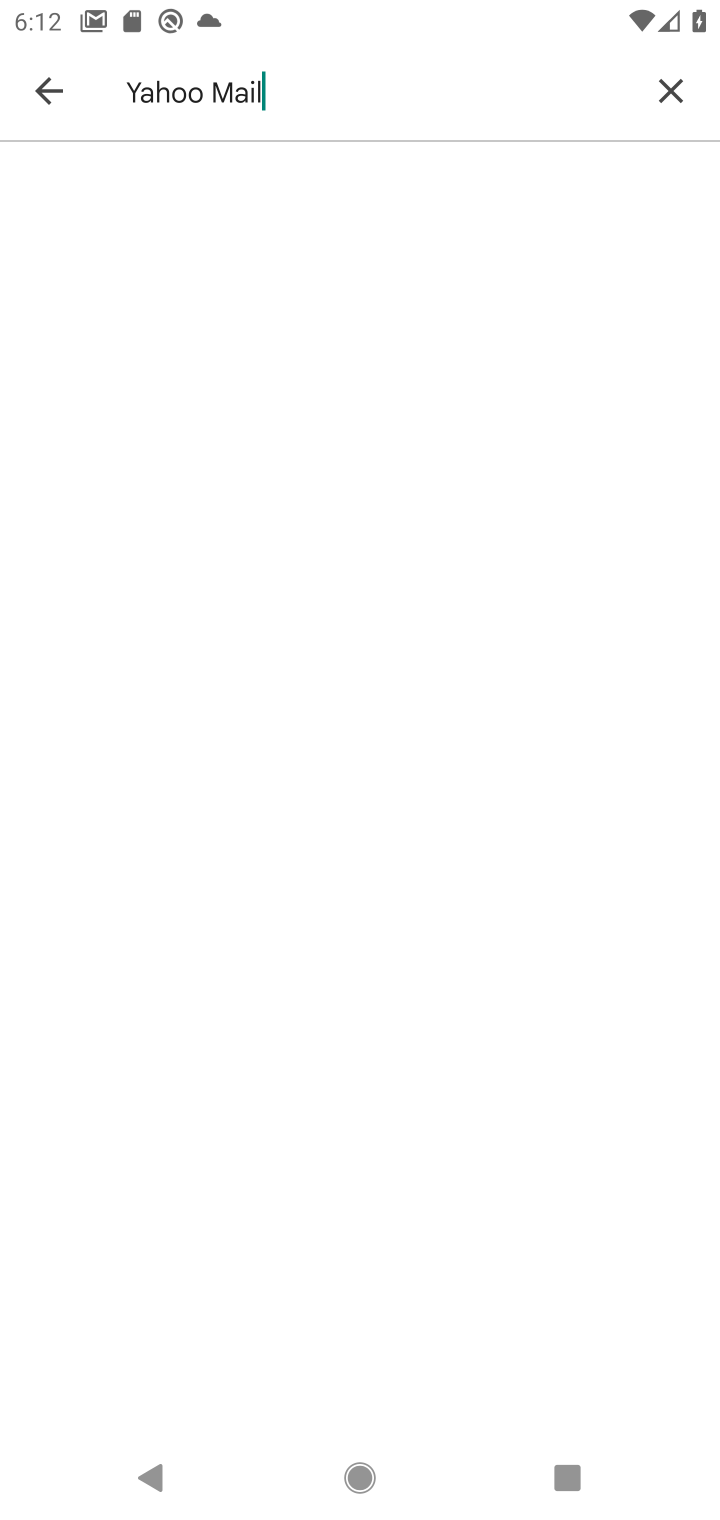
Step 29: click (289, 229)
Your task to perform on an android device: open app "Yahoo Mail" (install if not already installed) Image 30: 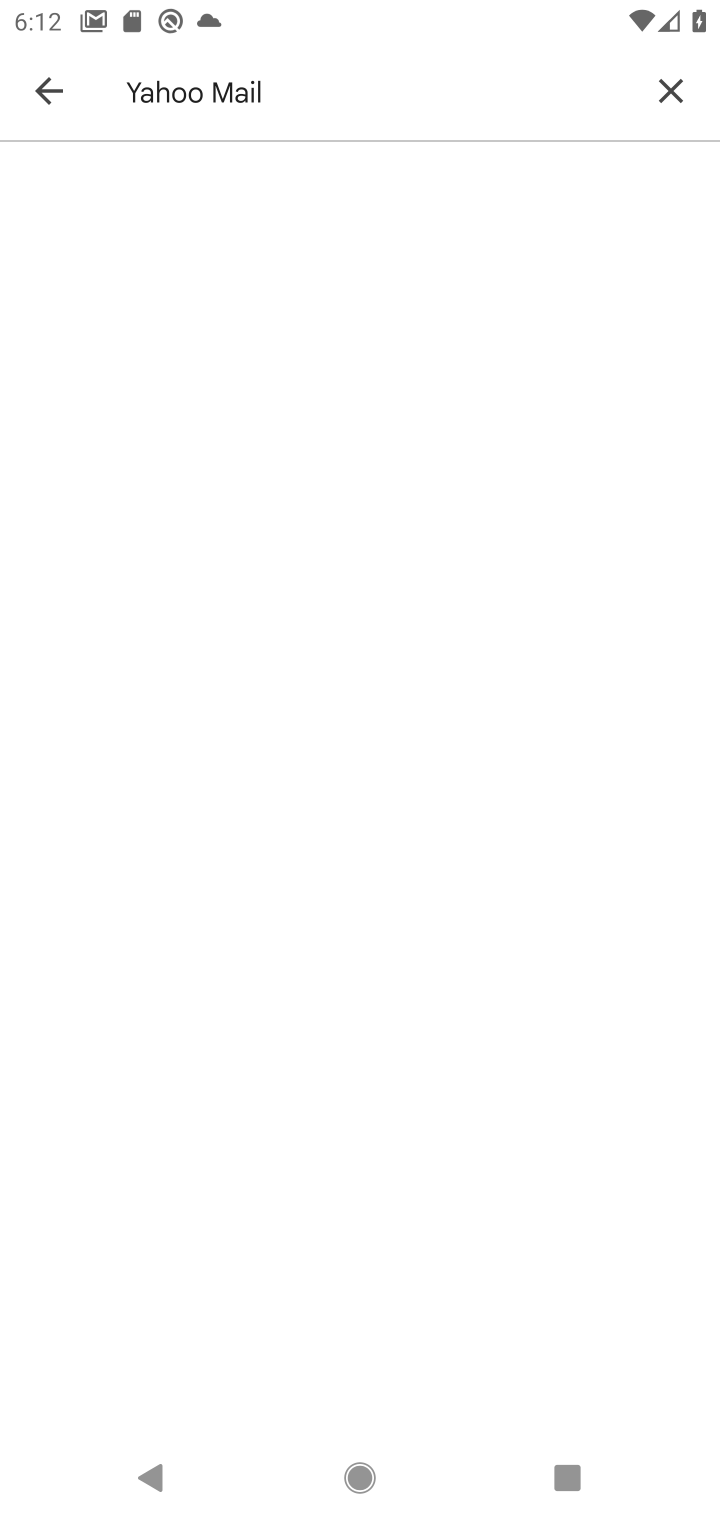
Step 30: click (254, 227)
Your task to perform on an android device: open app "Yahoo Mail" (install if not already installed) Image 31: 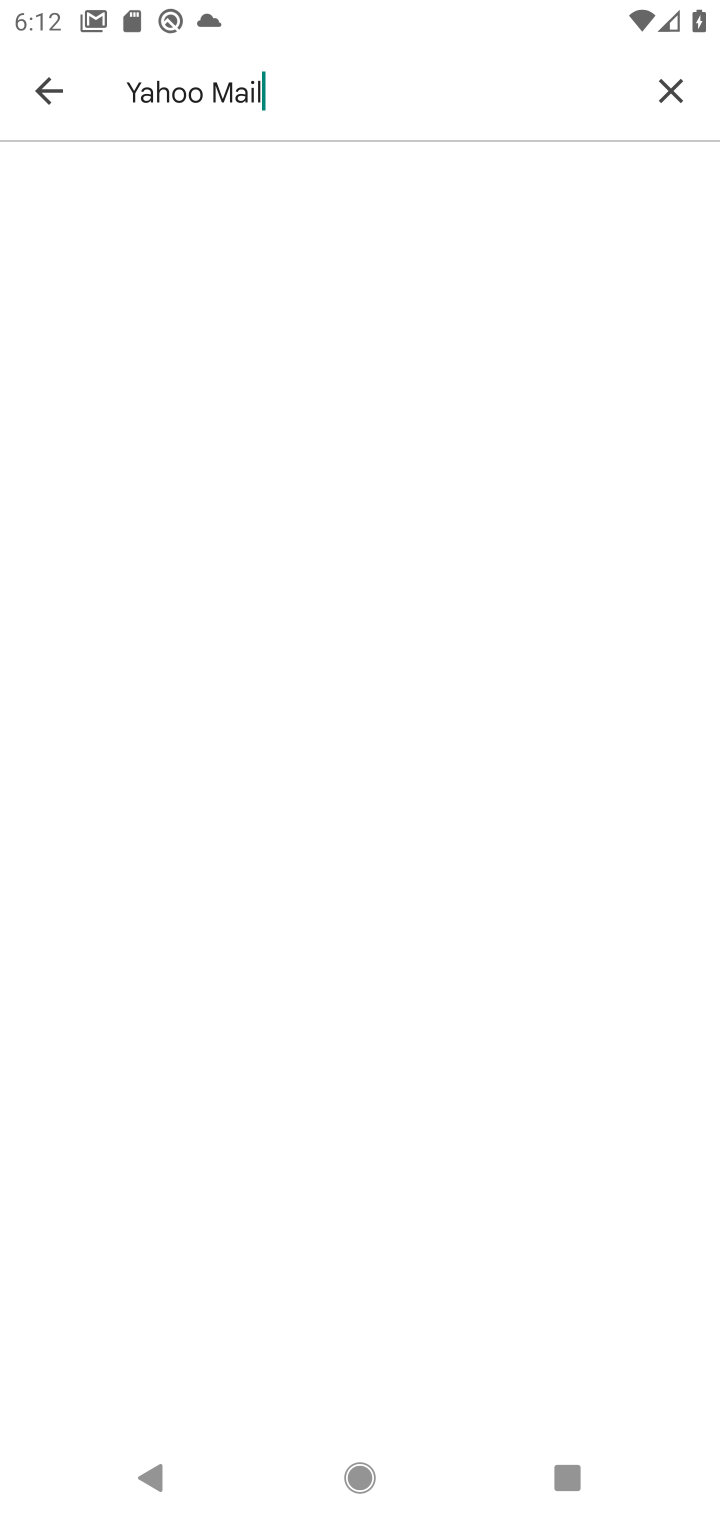
Step 31: click (279, 207)
Your task to perform on an android device: open app "Yahoo Mail" (install if not already installed) Image 32: 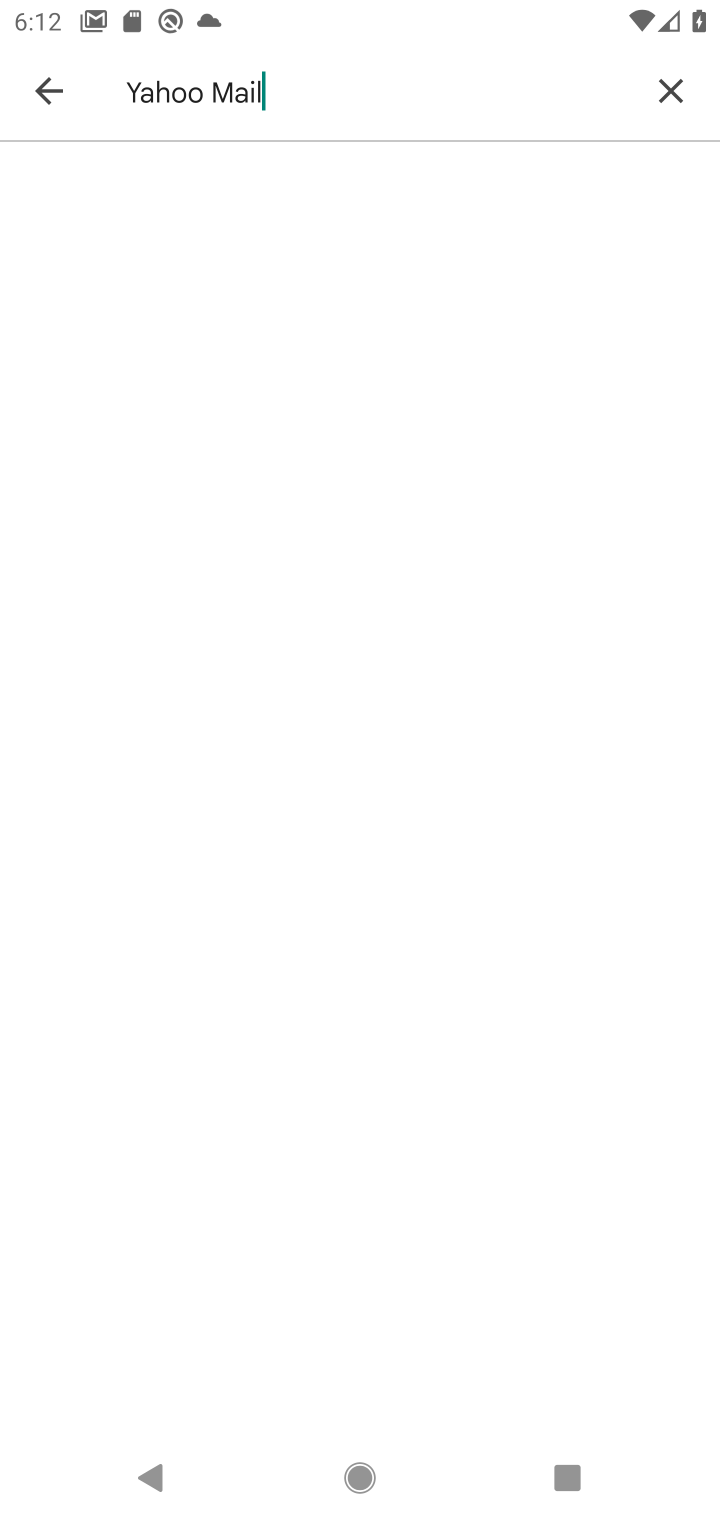
Step 32: click (436, 129)
Your task to perform on an android device: open app "Yahoo Mail" (install if not already installed) Image 33: 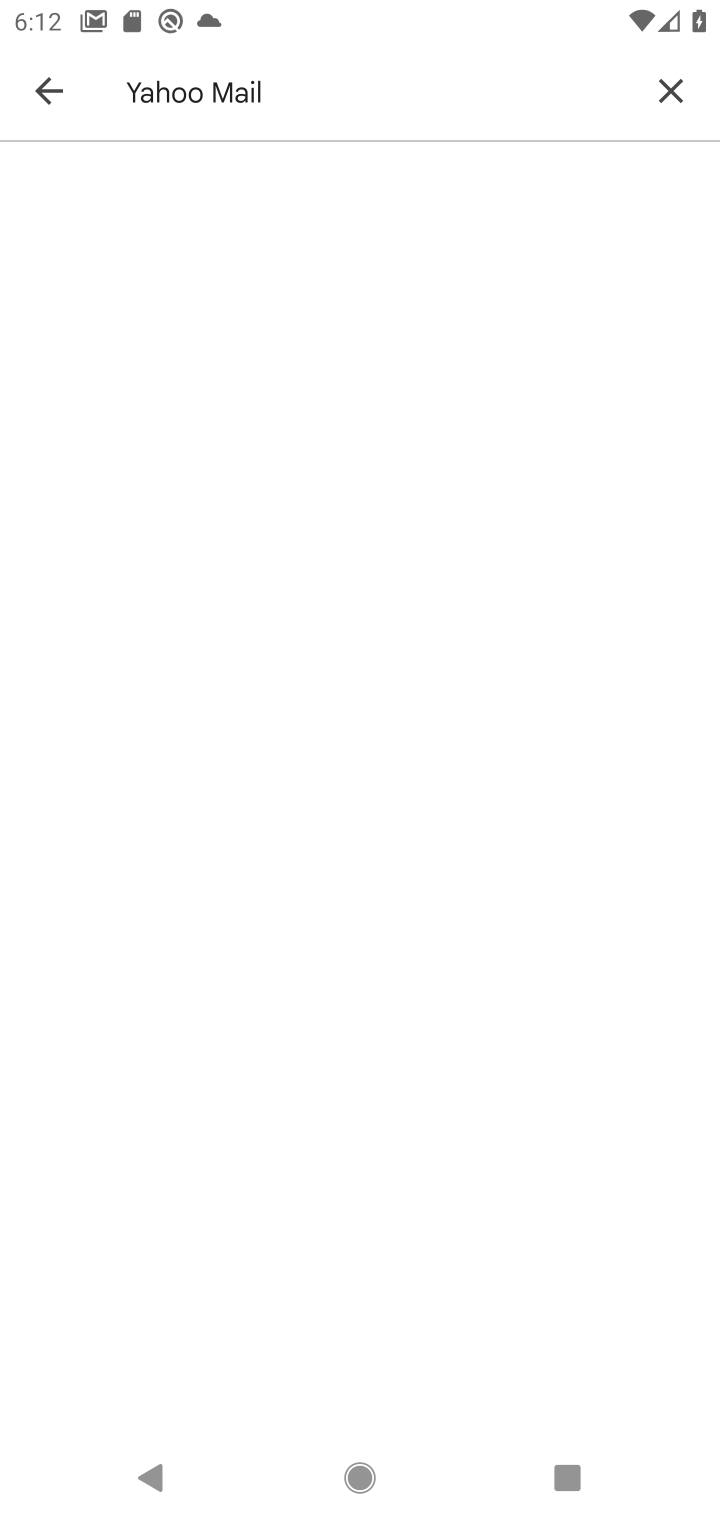
Step 33: drag from (346, 142) to (286, 185)
Your task to perform on an android device: open app "Yahoo Mail" (install if not already installed) Image 34: 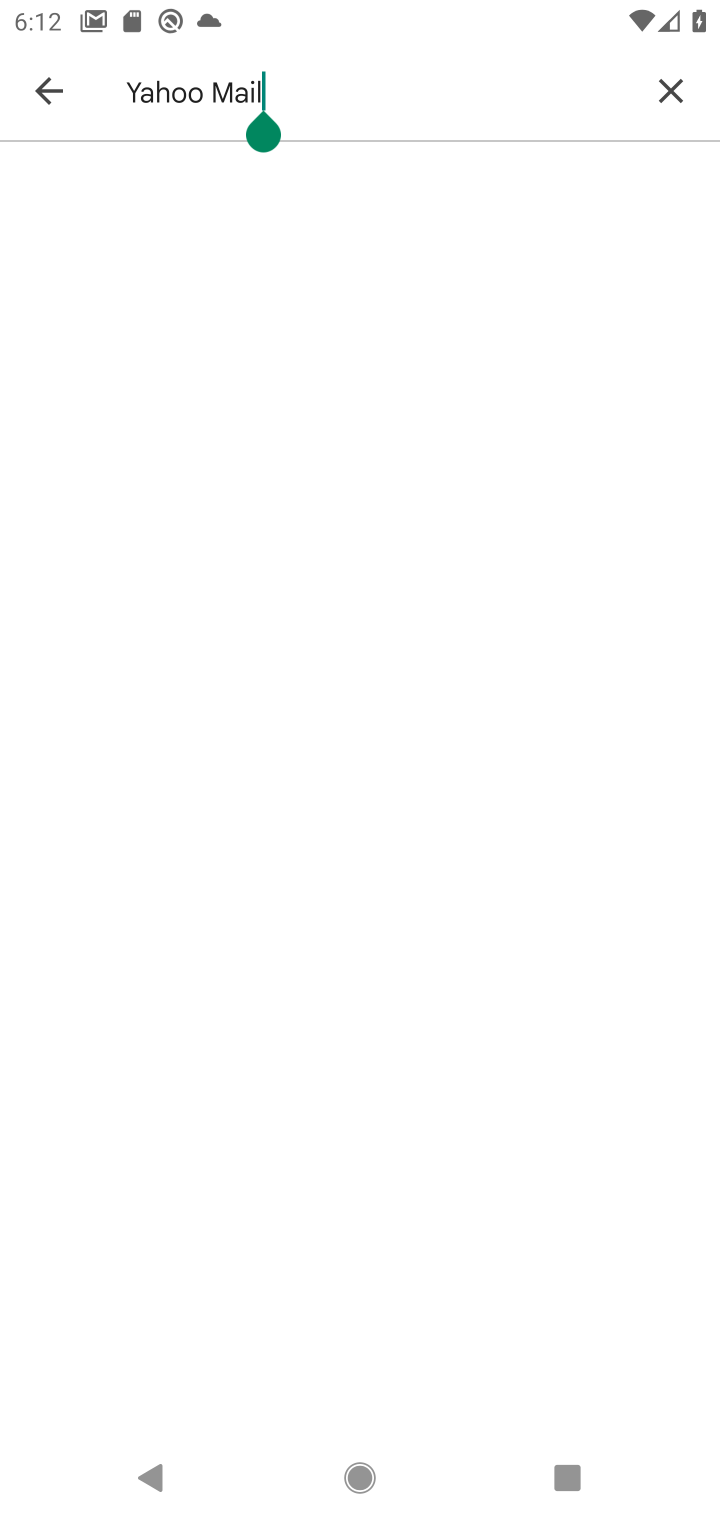
Step 34: click (249, 211)
Your task to perform on an android device: open app "Yahoo Mail" (install if not already installed) Image 35: 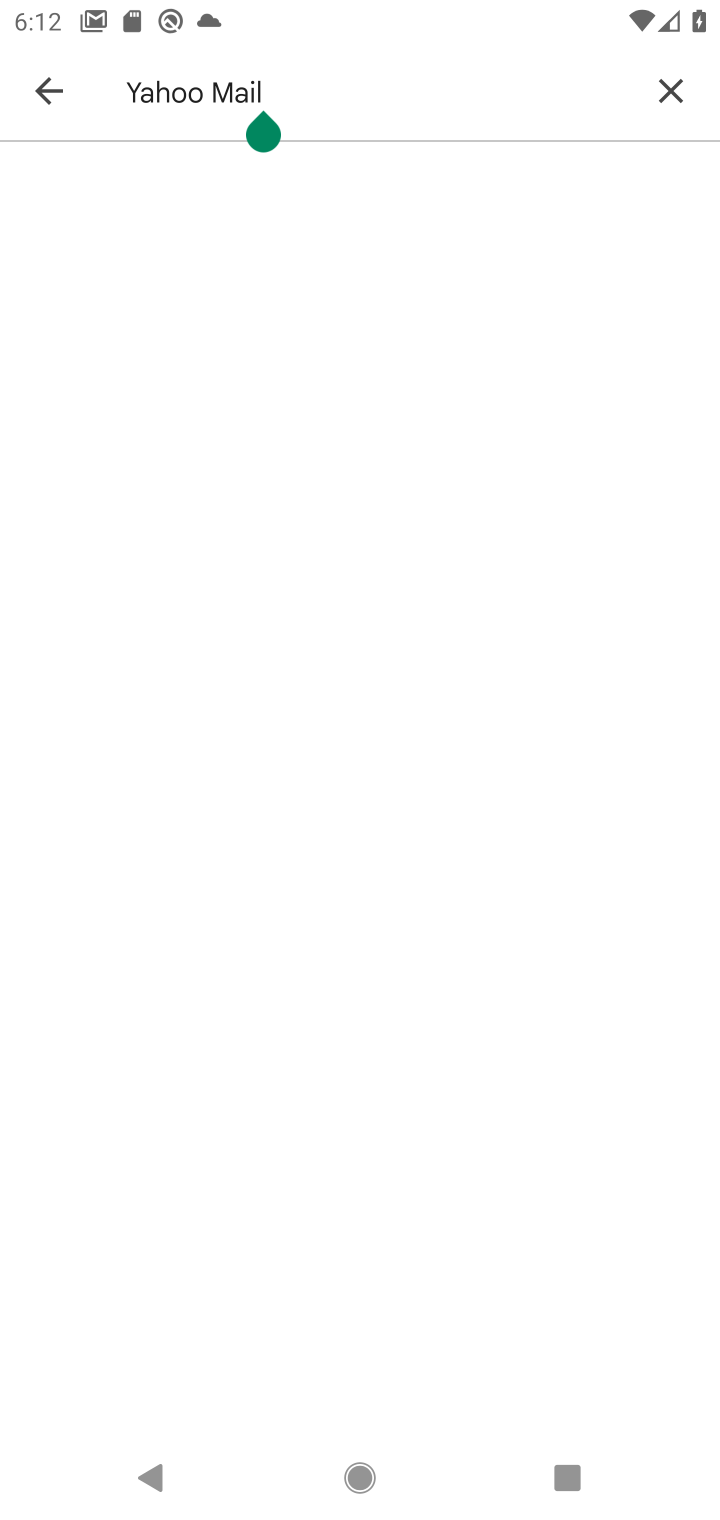
Step 35: click (236, 214)
Your task to perform on an android device: open app "Yahoo Mail" (install if not already installed) Image 36: 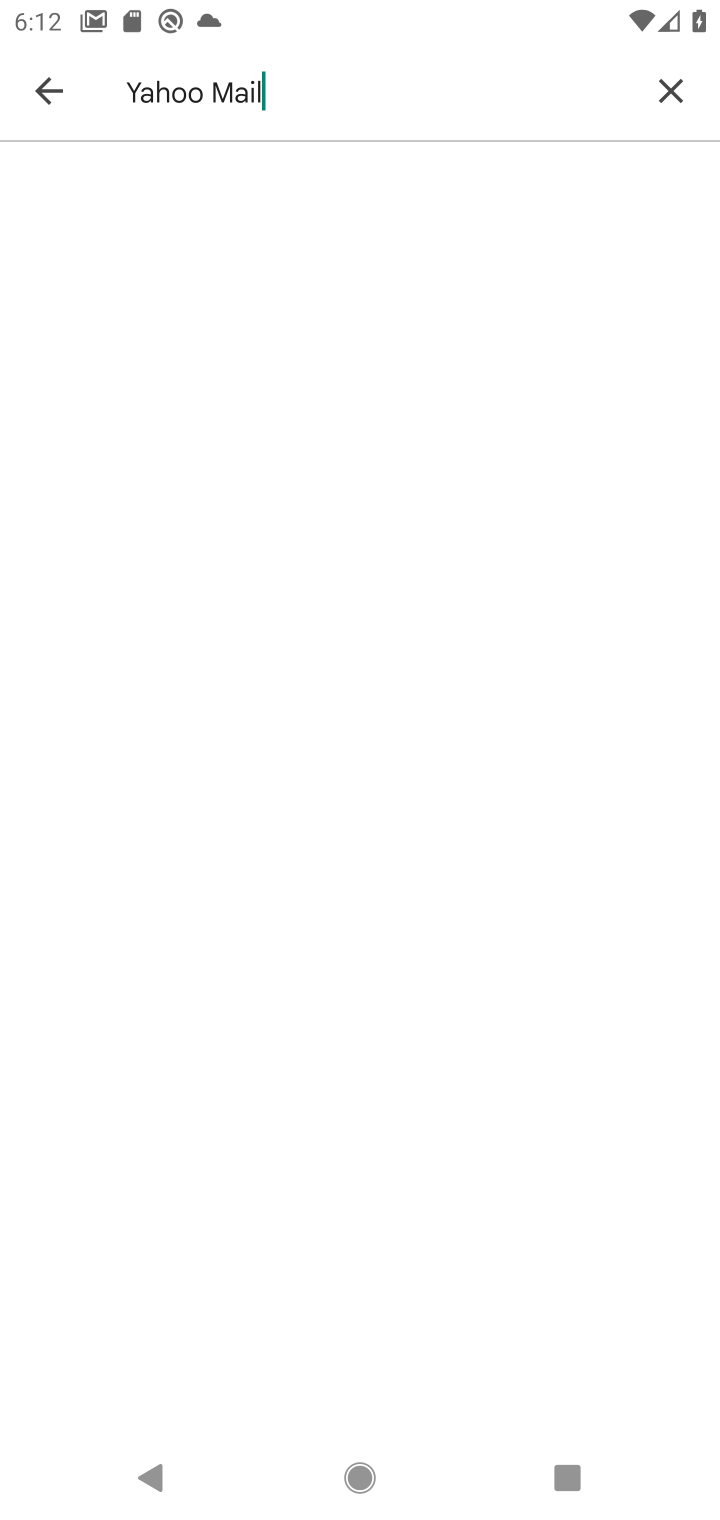
Step 36: task complete